Your task to perform on an android device: Clear all items from cart on walmart.com. Add "bose soundlink" to the cart on walmart.com Image 0: 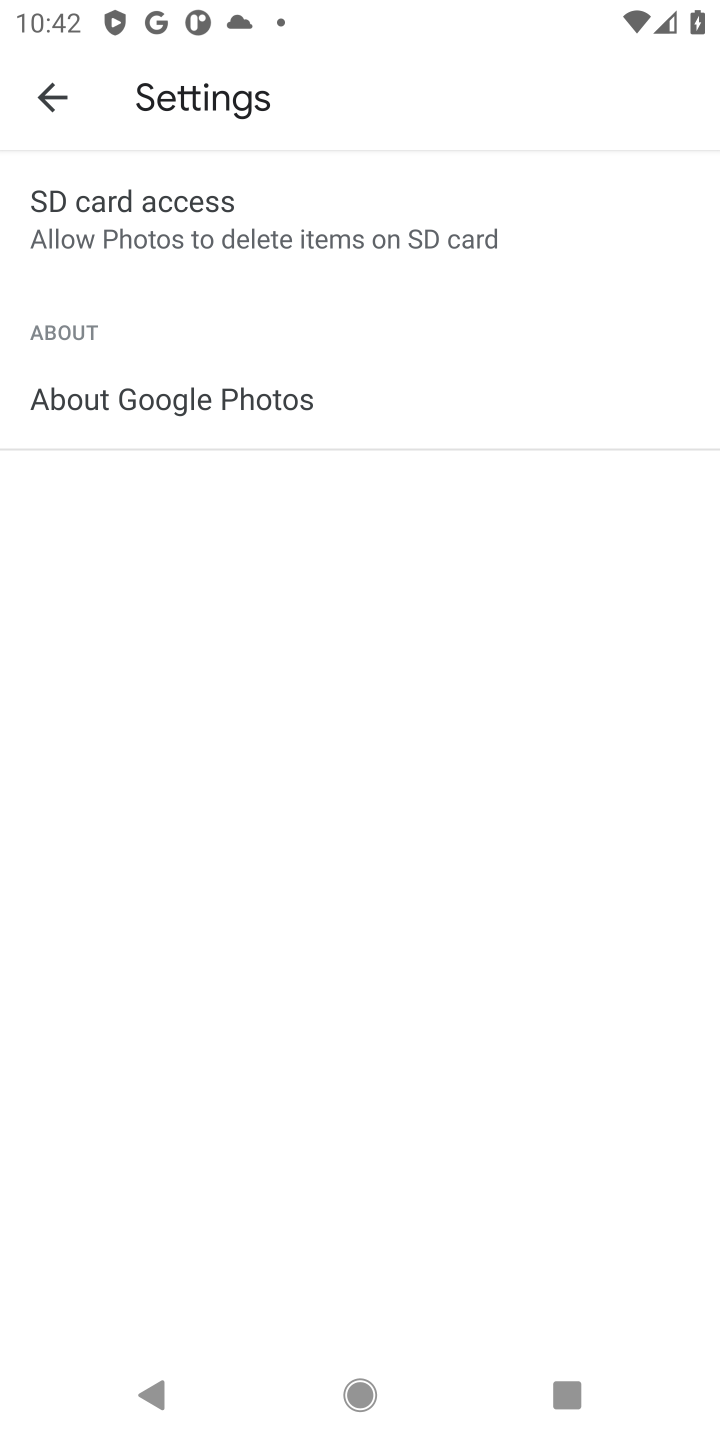
Step 0: press home button
Your task to perform on an android device: Clear all items from cart on walmart.com. Add "bose soundlink" to the cart on walmart.com Image 1: 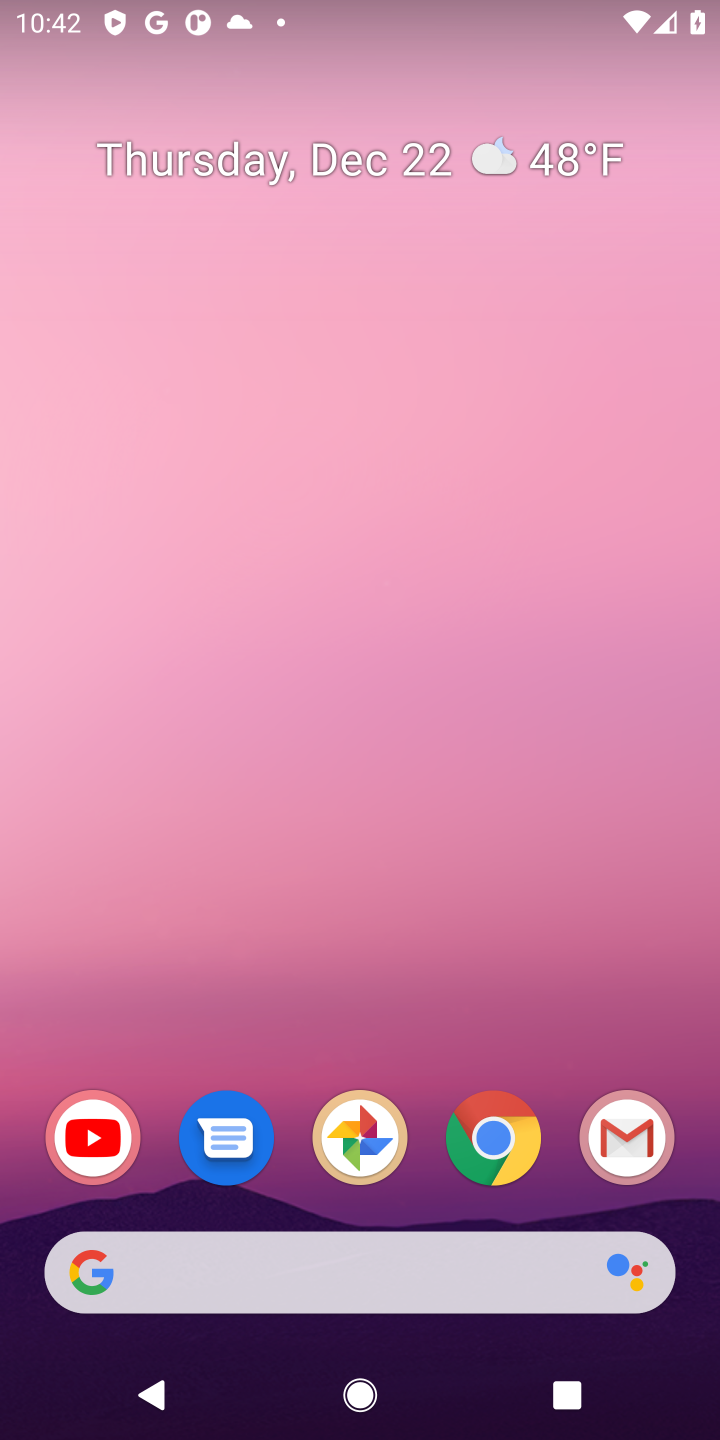
Step 1: click (495, 1123)
Your task to perform on an android device: Clear all items from cart on walmart.com. Add "bose soundlink" to the cart on walmart.com Image 2: 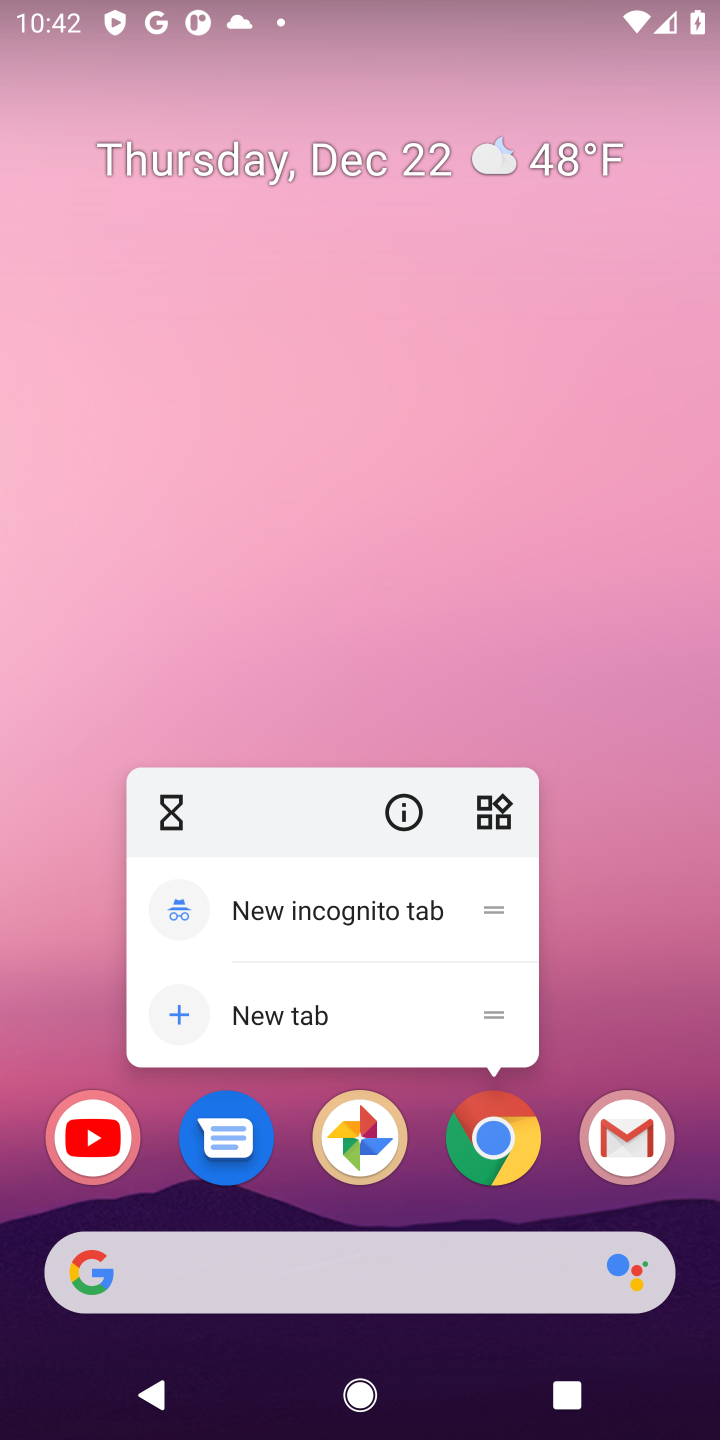
Step 2: click (498, 1138)
Your task to perform on an android device: Clear all items from cart on walmart.com. Add "bose soundlink" to the cart on walmart.com Image 3: 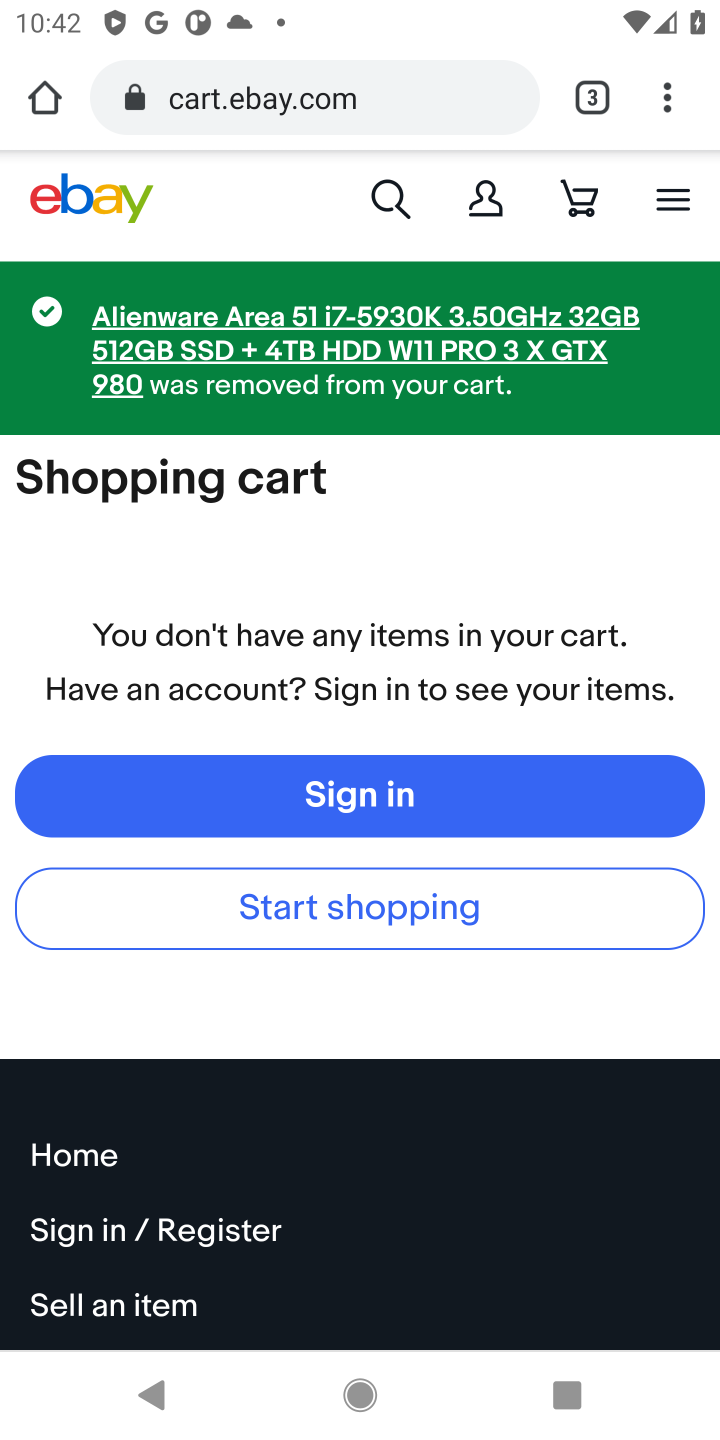
Step 3: click (398, 104)
Your task to perform on an android device: Clear all items from cart on walmart.com. Add "bose soundlink" to the cart on walmart.com Image 4: 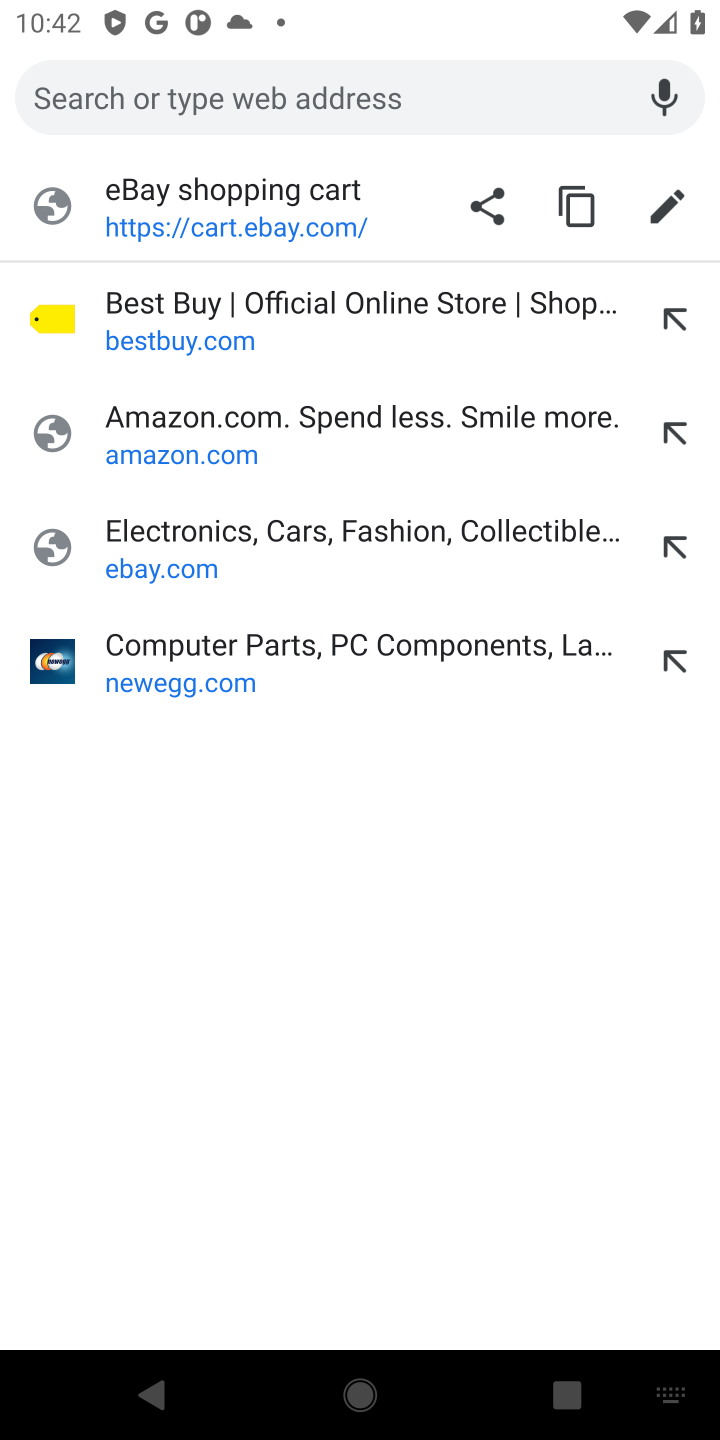
Step 4: type "walmart.com"
Your task to perform on an android device: Clear all items from cart on walmart.com. Add "bose soundlink" to the cart on walmart.com Image 5: 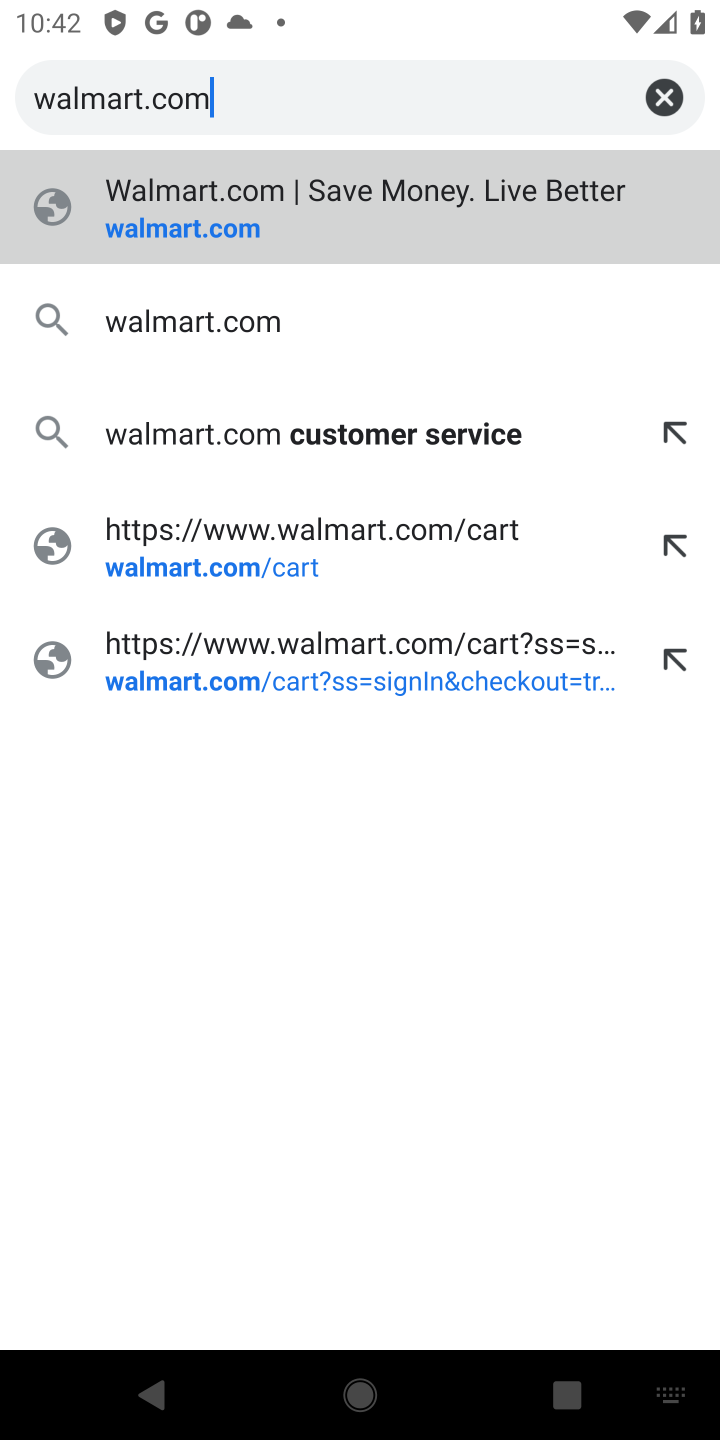
Step 5: click (243, 321)
Your task to perform on an android device: Clear all items from cart on walmart.com. Add "bose soundlink" to the cart on walmart.com Image 6: 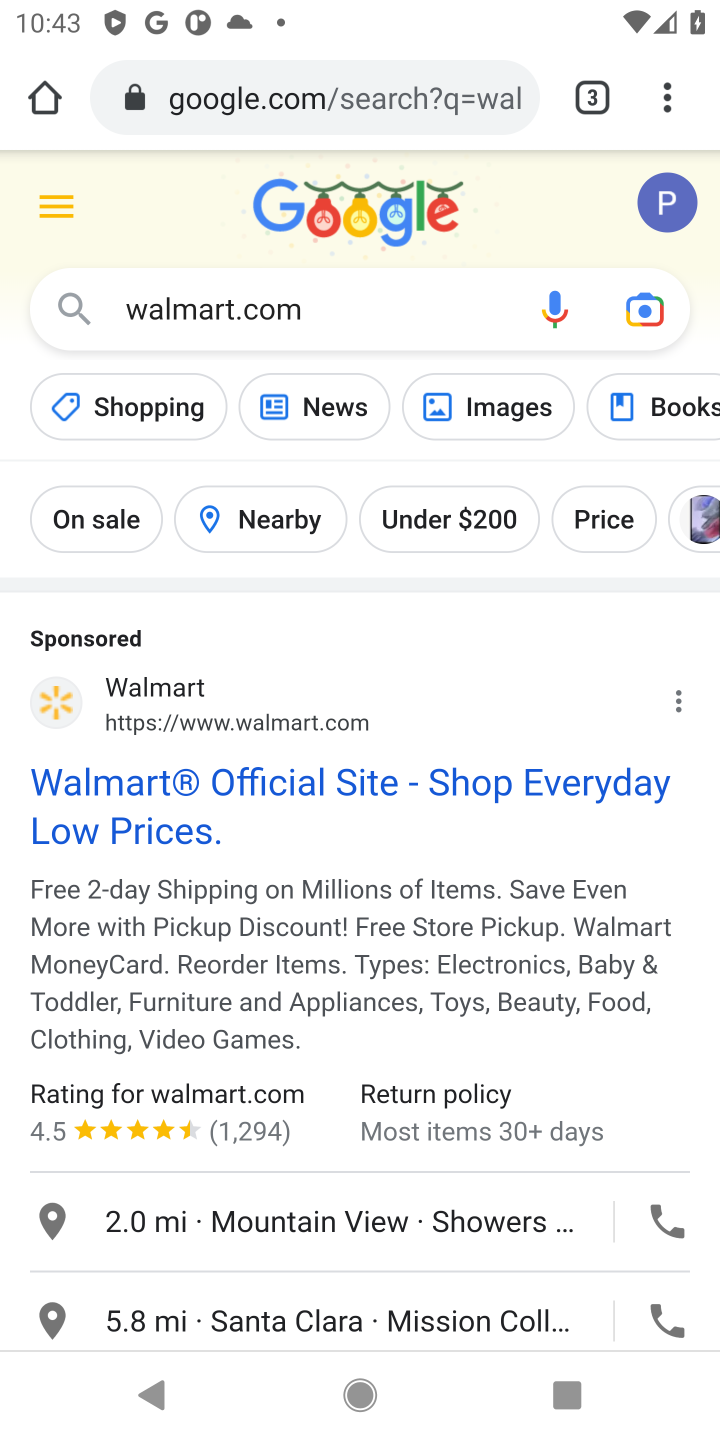
Step 6: click (156, 718)
Your task to perform on an android device: Clear all items from cart on walmart.com. Add "bose soundlink" to the cart on walmart.com Image 7: 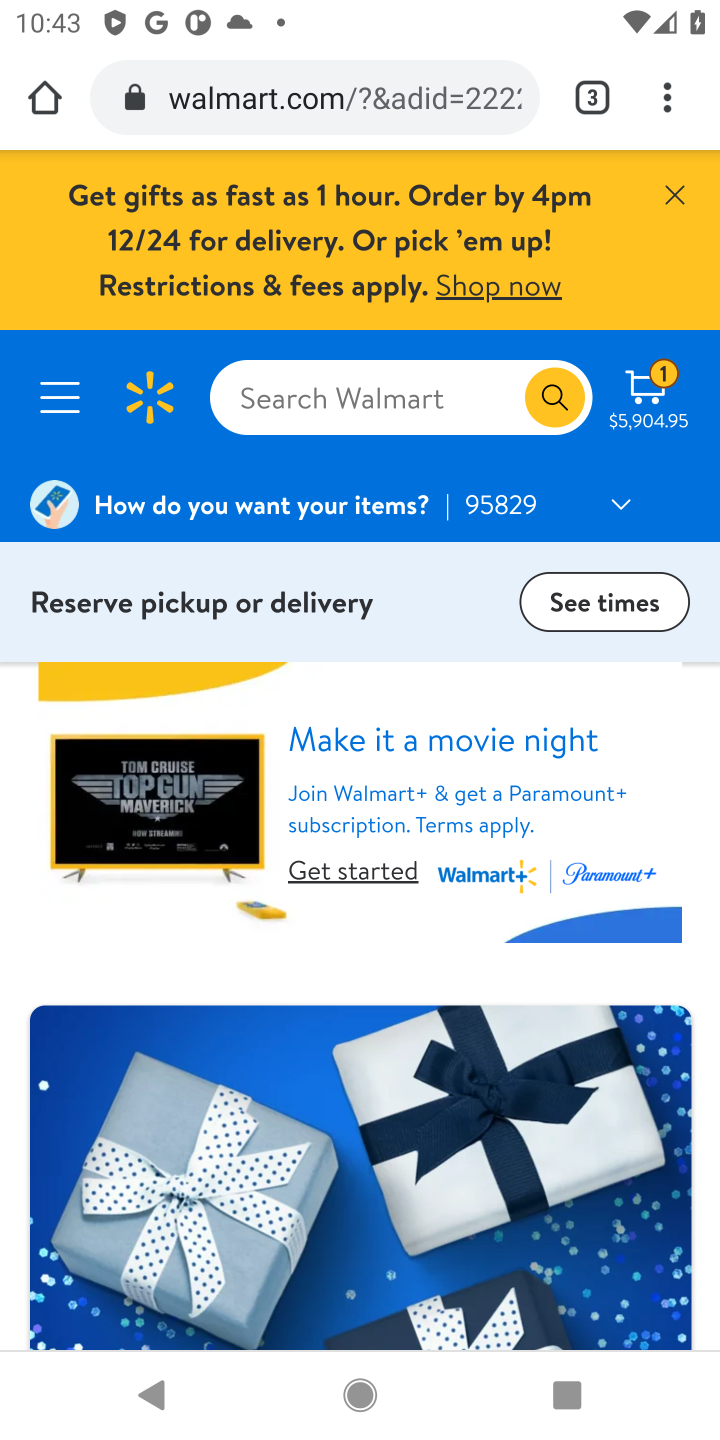
Step 7: click (670, 187)
Your task to perform on an android device: Clear all items from cart on walmart.com. Add "bose soundlink" to the cart on walmart.com Image 8: 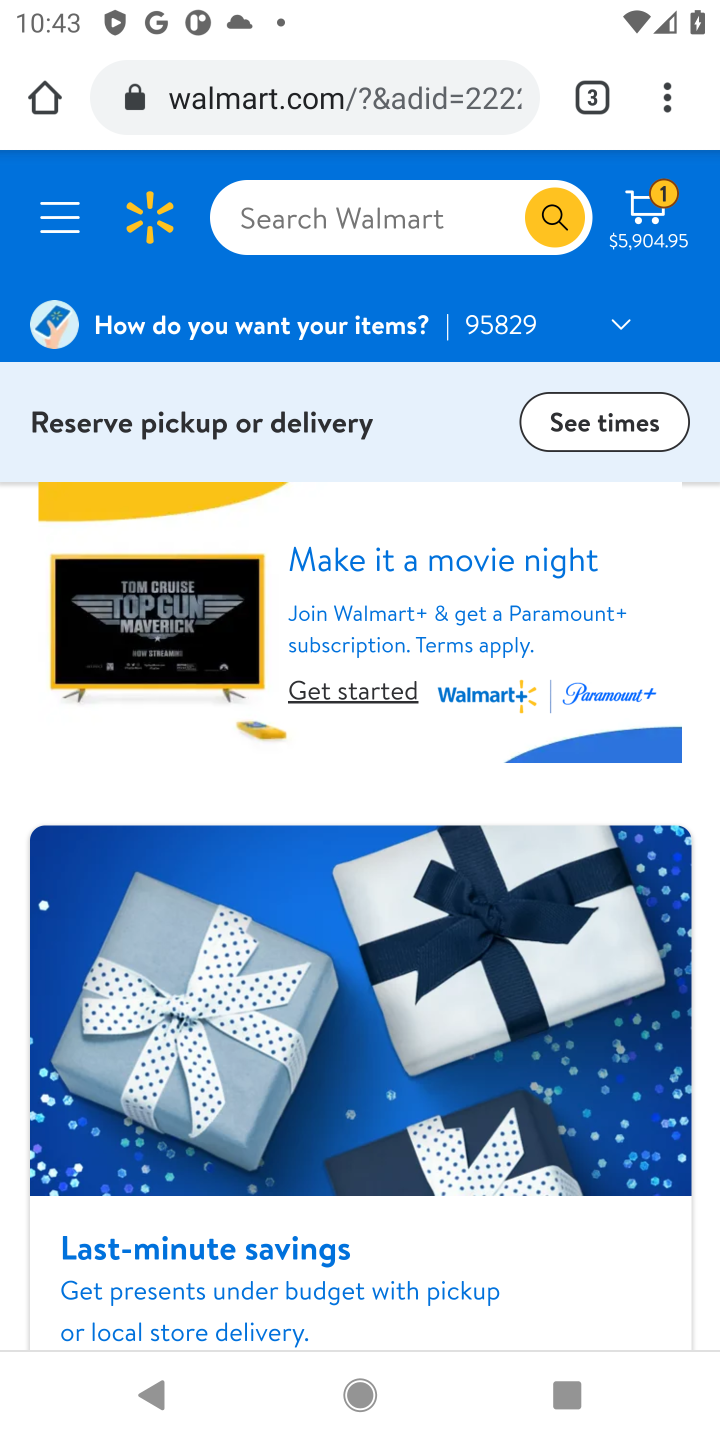
Step 8: click (635, 221)
Your task to perform on an android device: Clear all items from cart on walmart.com. Add "bose soundlink" to the cart on walmart.com Image 9: 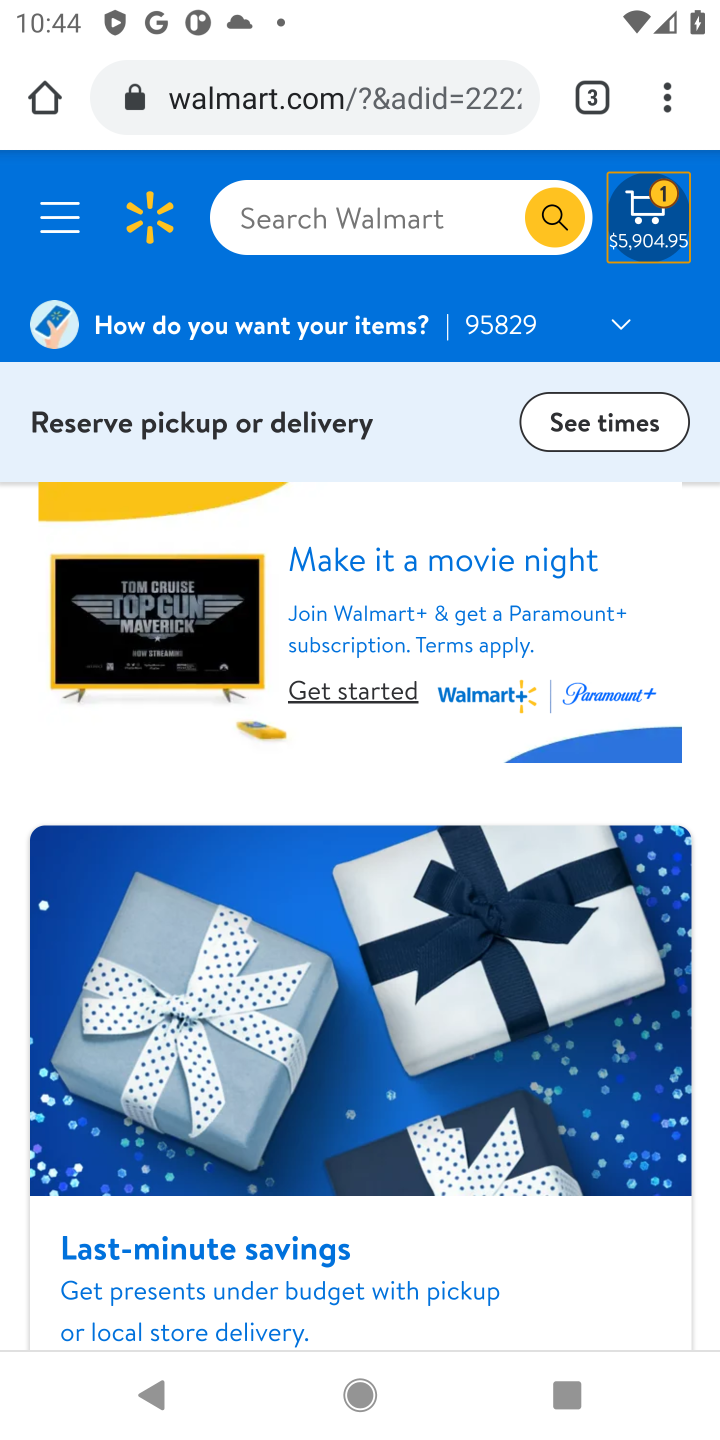
Step 9: drag from (599, 500) to (615, 188)
Your task to perform on an android device: Clear all items from cart on walmart.com. Add "bose soundlink" to the cart on walmart.com Image 10: 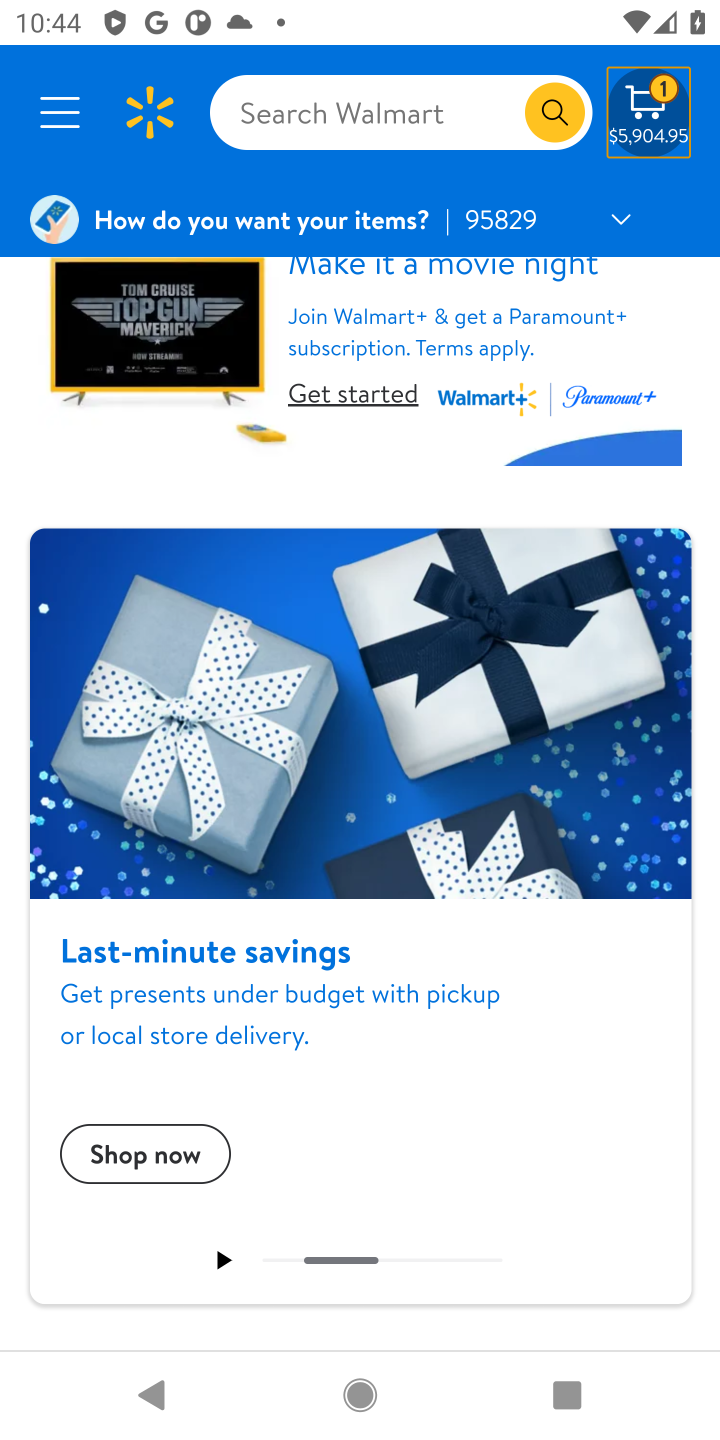
Step 10: drag from (530, 707) to (521, 495)
Your task to perform on an android device: Clear all items from cart on walmart.com. Add "bose soundlink" to the cart on walmart.com Image 11: 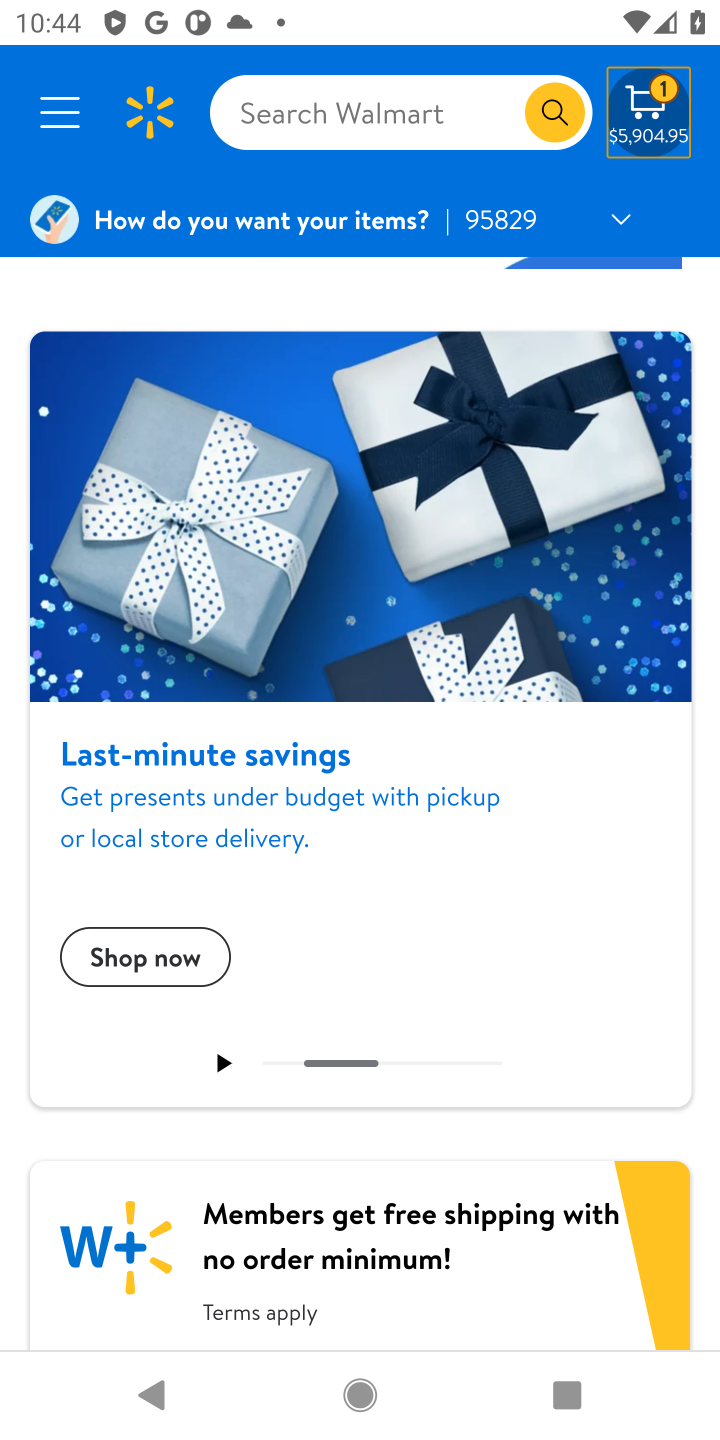
Step 11: click (643, 113)
Your task to perform on an android device: Clear all items from cart on walmart.com. Add "bose soundlink" to the cart on walmart.com Image 12: 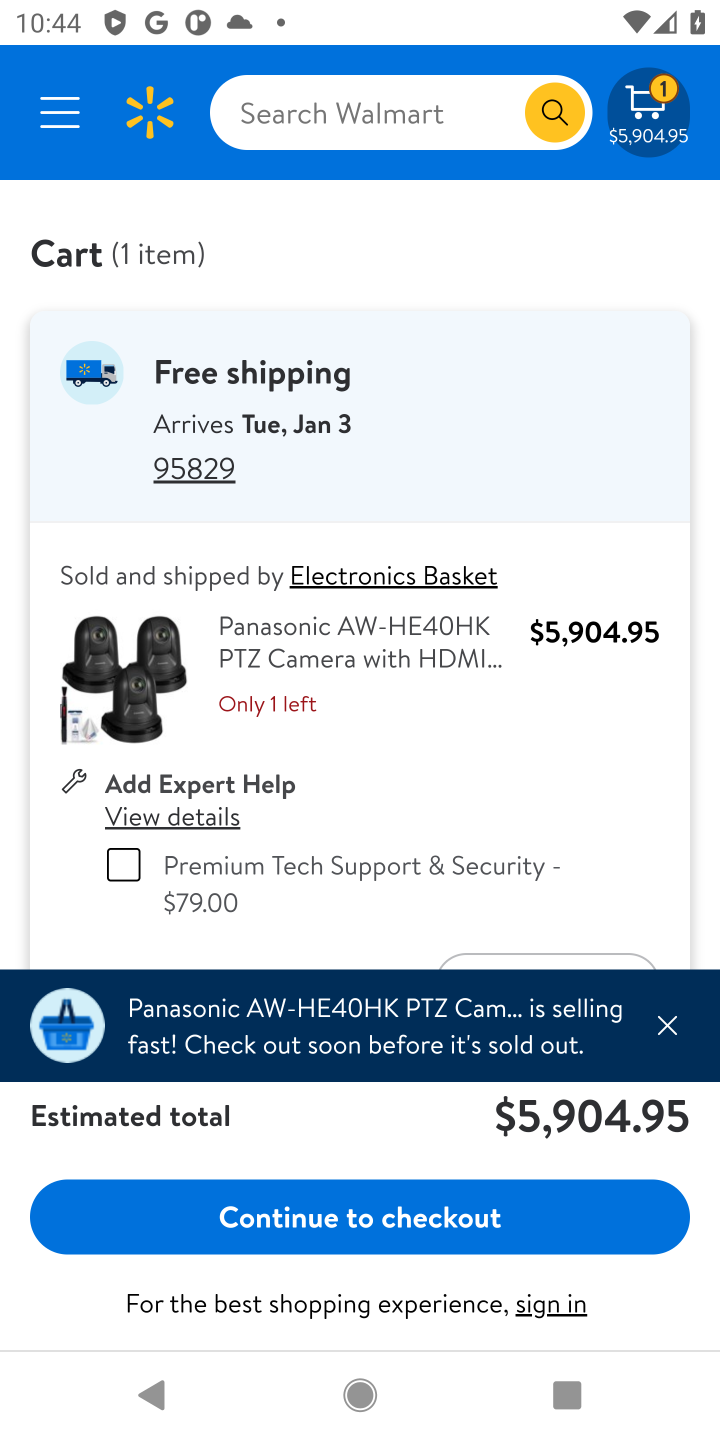
Step 12: drag from (508, 732) to (587, 272)
Your task to perform on an android device: Clear all items from cart on walmart.com. Add "bose soundlink" to the cart on walmart.com Image 13: 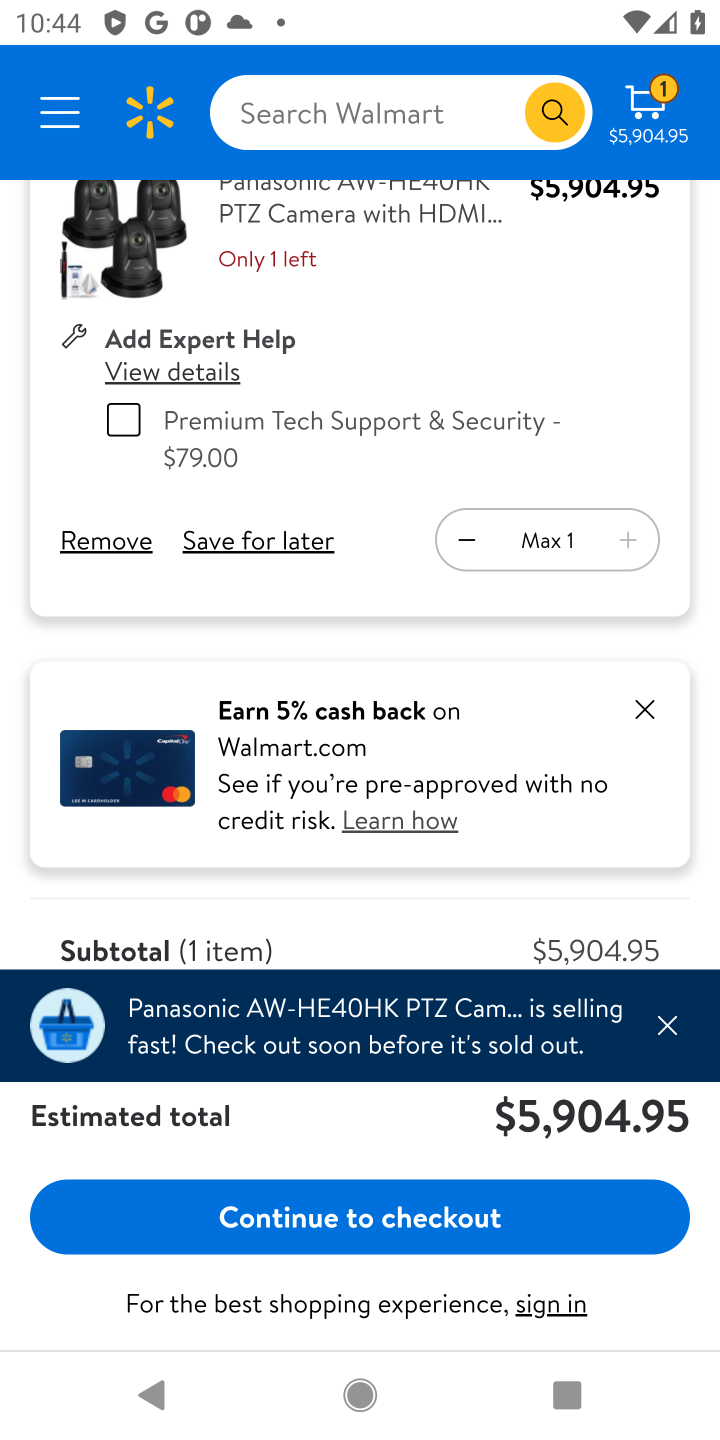
Step 13: click (124, 533)
Your task to perform on an android device: Clear all items from cart on walmart.com. Add "bose soundlink" to the cart on walmart.com Image 14: 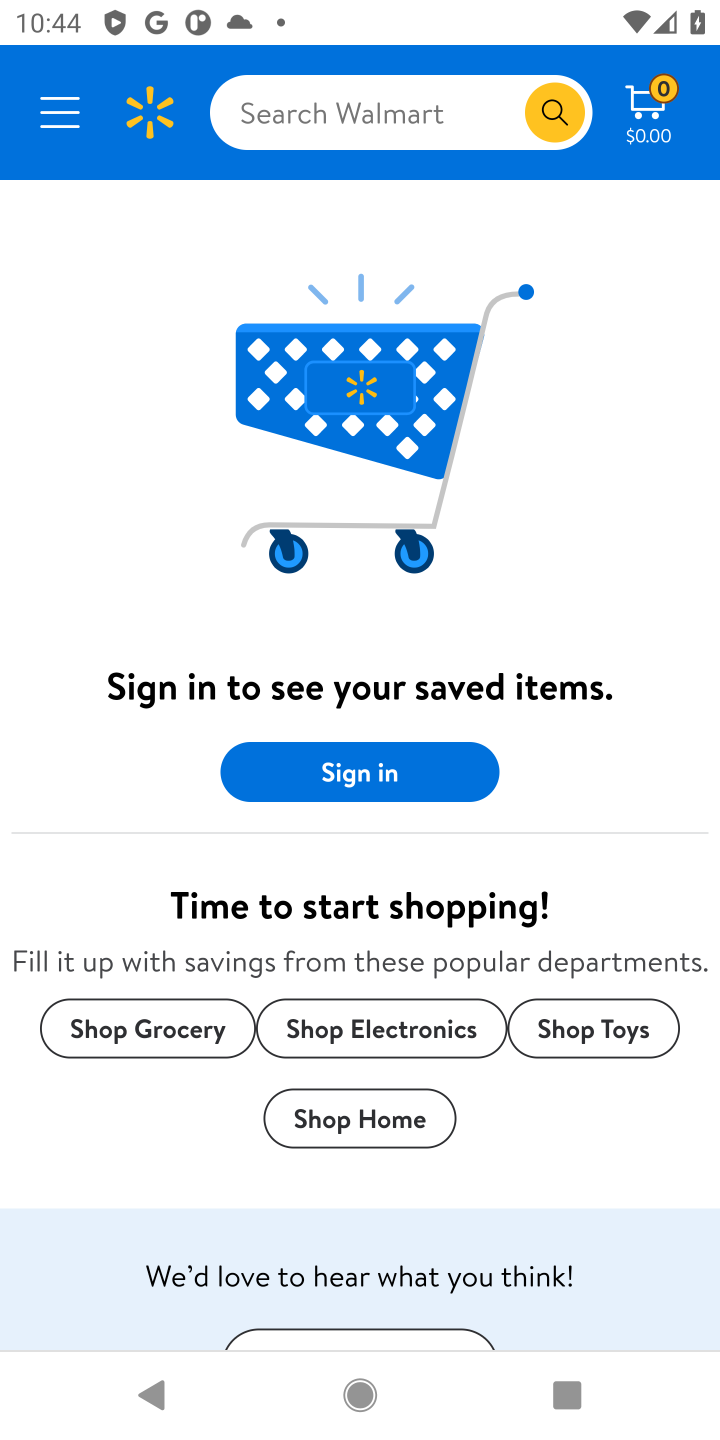
Step 14: drag from (524, 443) to (605, 1010)
Your task to perform on an android device: Clear all items from cart on walmart.com. Add "bose soundlink" to the cart on walmart.com Image 15: 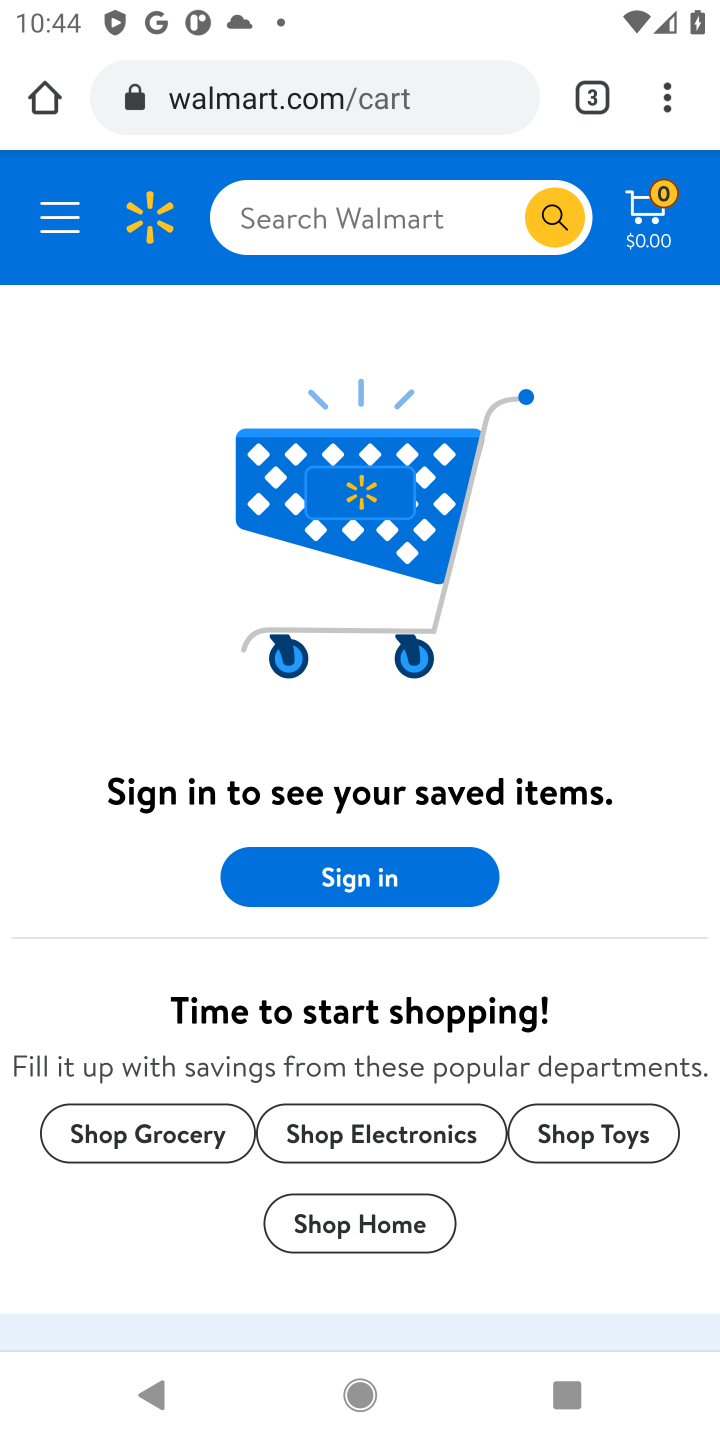
Step 15: click (360, 209)
Your task to perform on an android device: Clear all items from cart on walmart.com. Add "bose soundlink" to the cart on walmart.com Image 16: 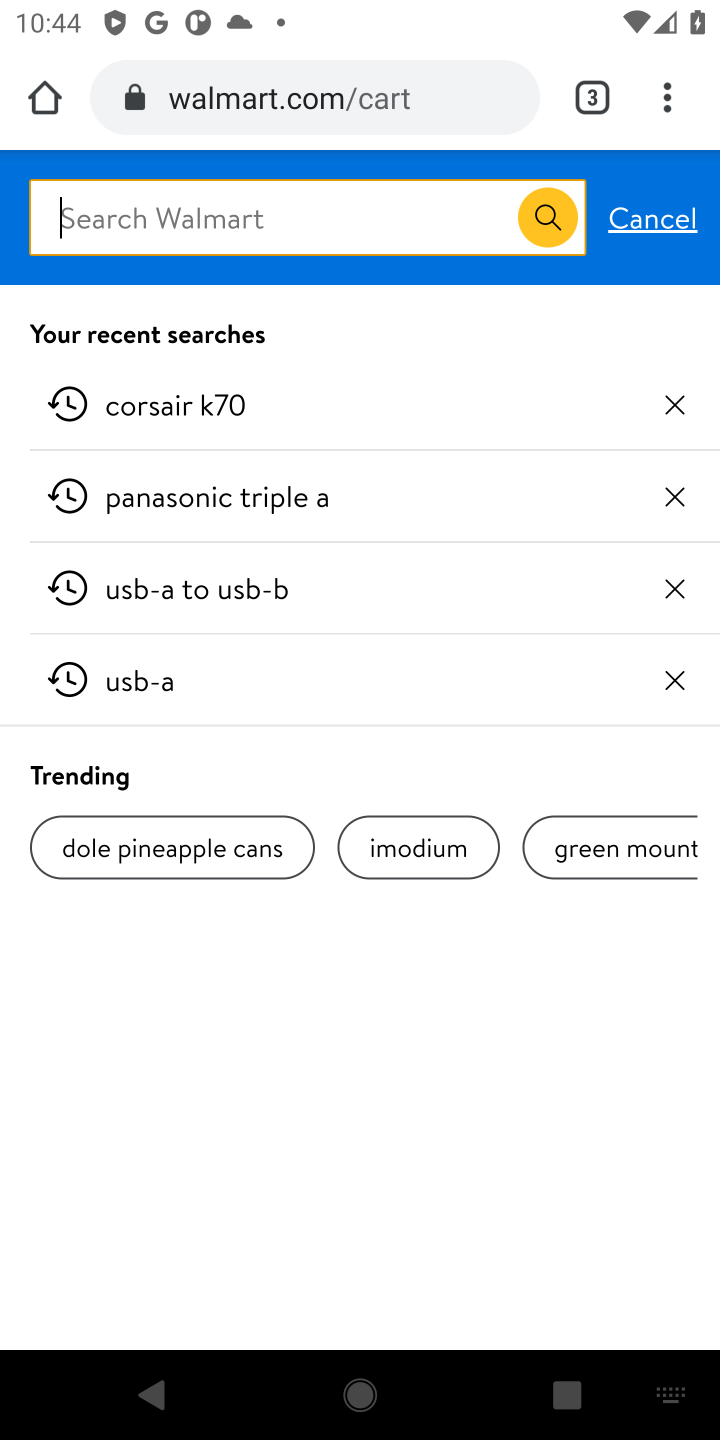
Step 16: type "bose soundlink"
Your task to perform on an android device: Clear all items from cart on walmart.com. Add "bose soundlink" to the cart on walmart.com Image 17: 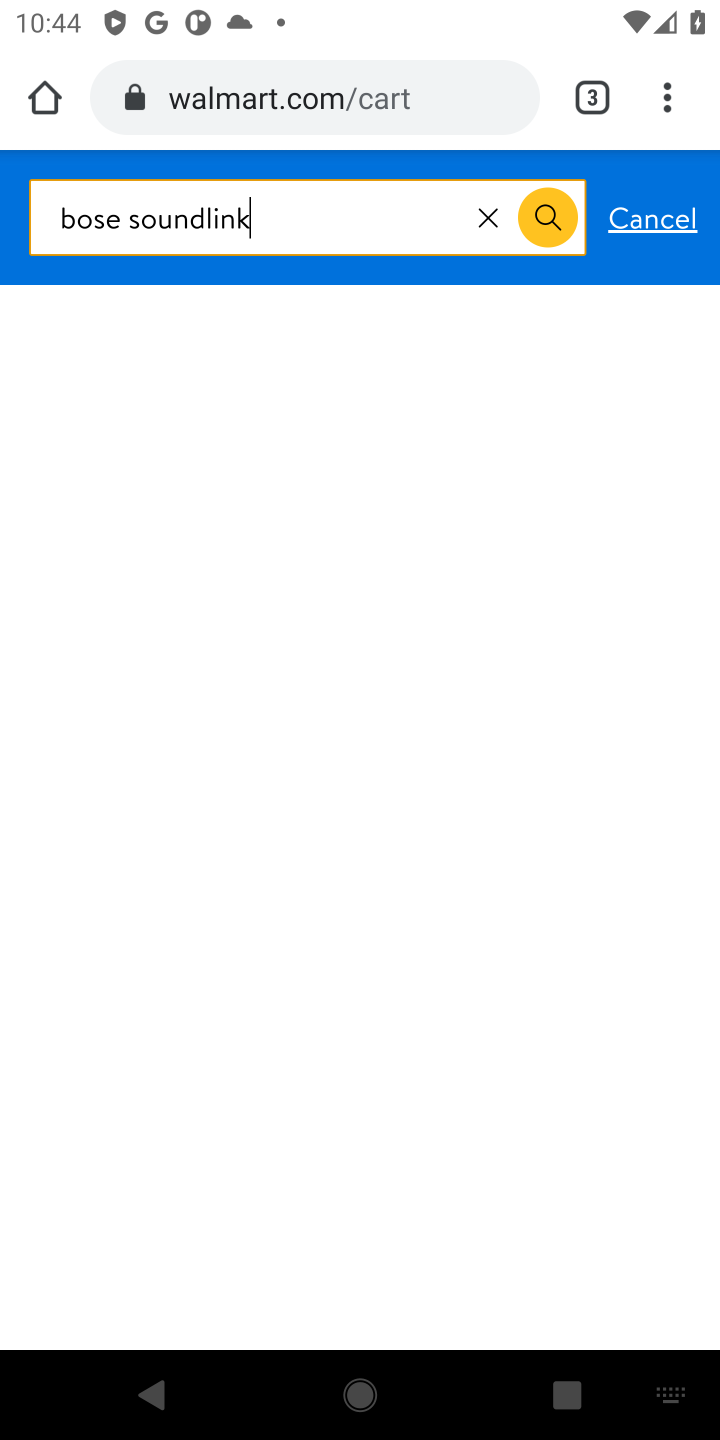
Step 17: press enter
Your task to perform on an android device: Clear all items from cart on walmart.com. Add "bose soundlink" to the cart on walmart.com Image 18: 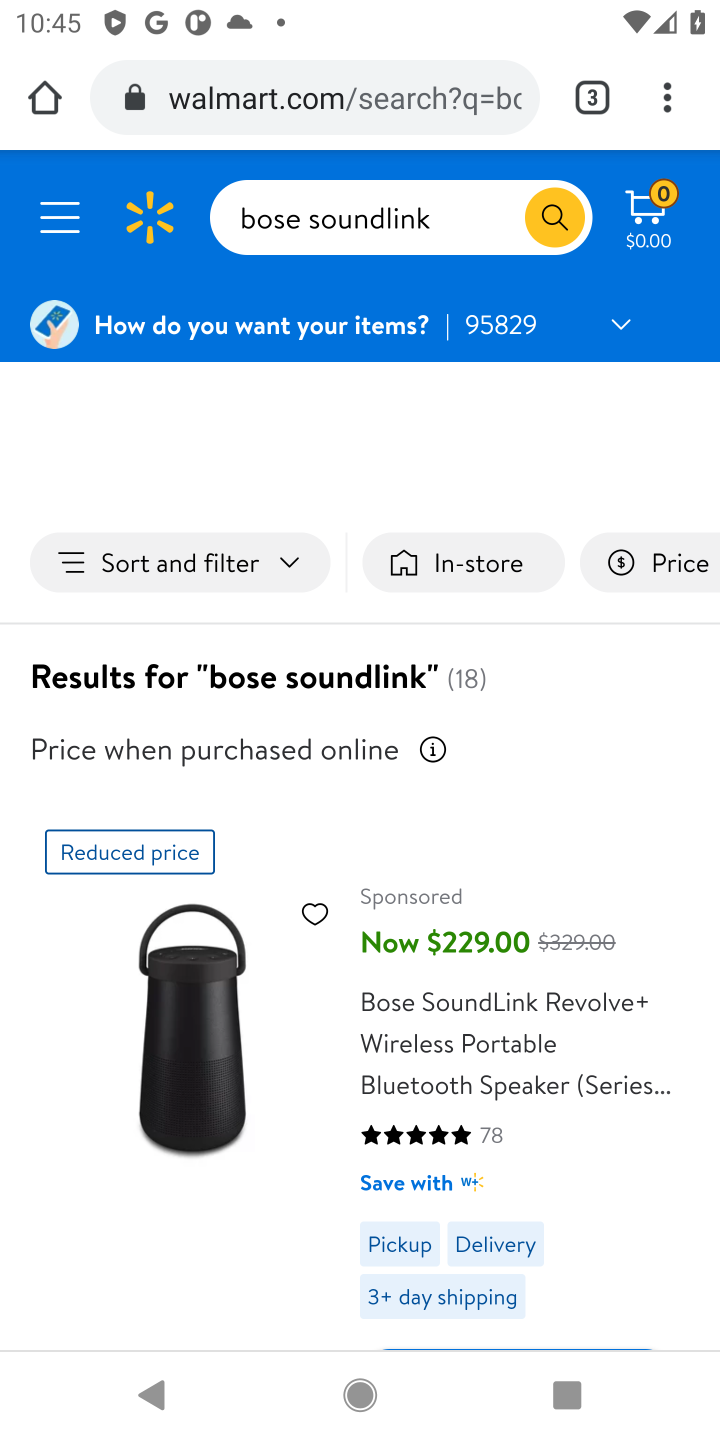
Step 18: click (188, 1049)
Your task to perform on an android device: Clear all items from cart on walmart.com. Add "bose soundlink" to the cart on walmart.com Image 19: 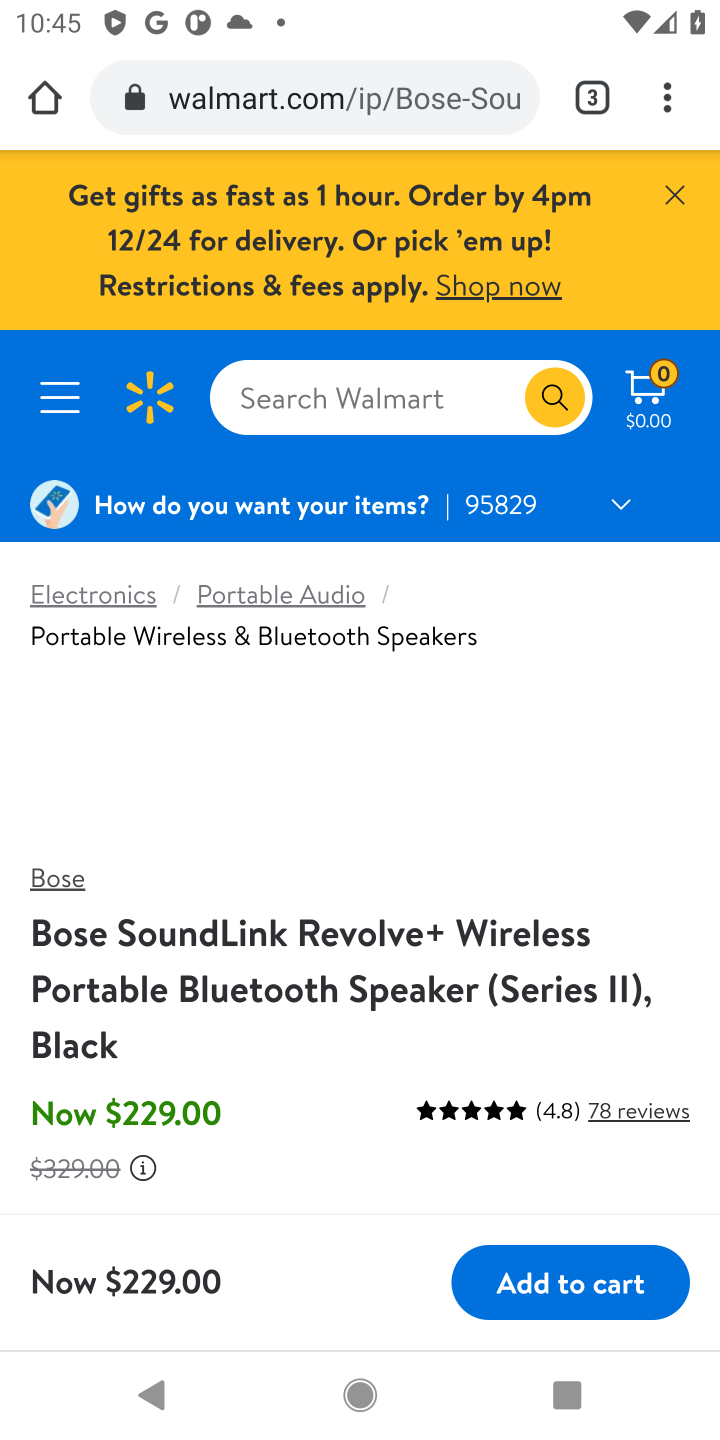
Step 19: drag from (323, 1015) to (432, 418)
Your task to perform on an android device: Clear all items from cart on walmart.com. Add "bose soundlink" to the cart on walmart.com Image 20: 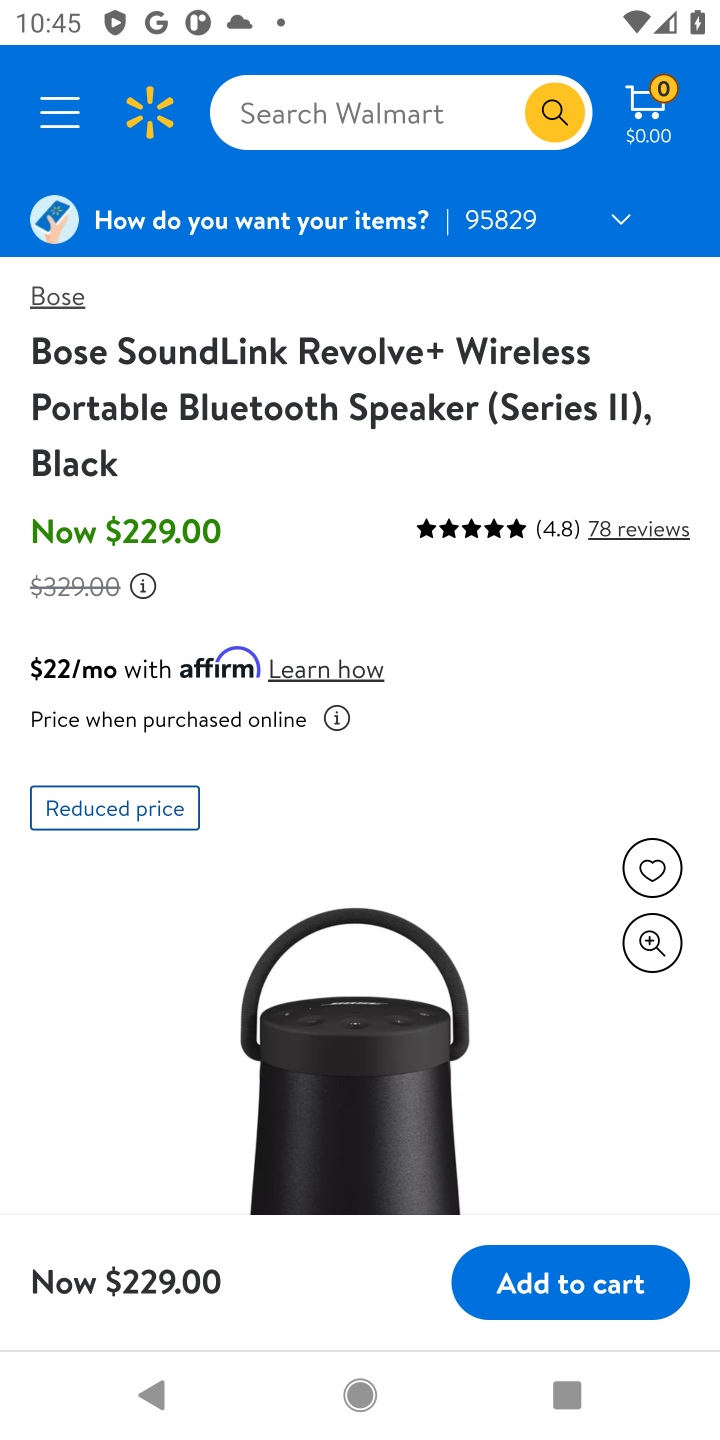
Step 20: click (580, 1284)
Your task to perform on an android device: Clear all items from cart on walmart.com. Add "bose soundlink" to the cart on walmart.com Image 21: 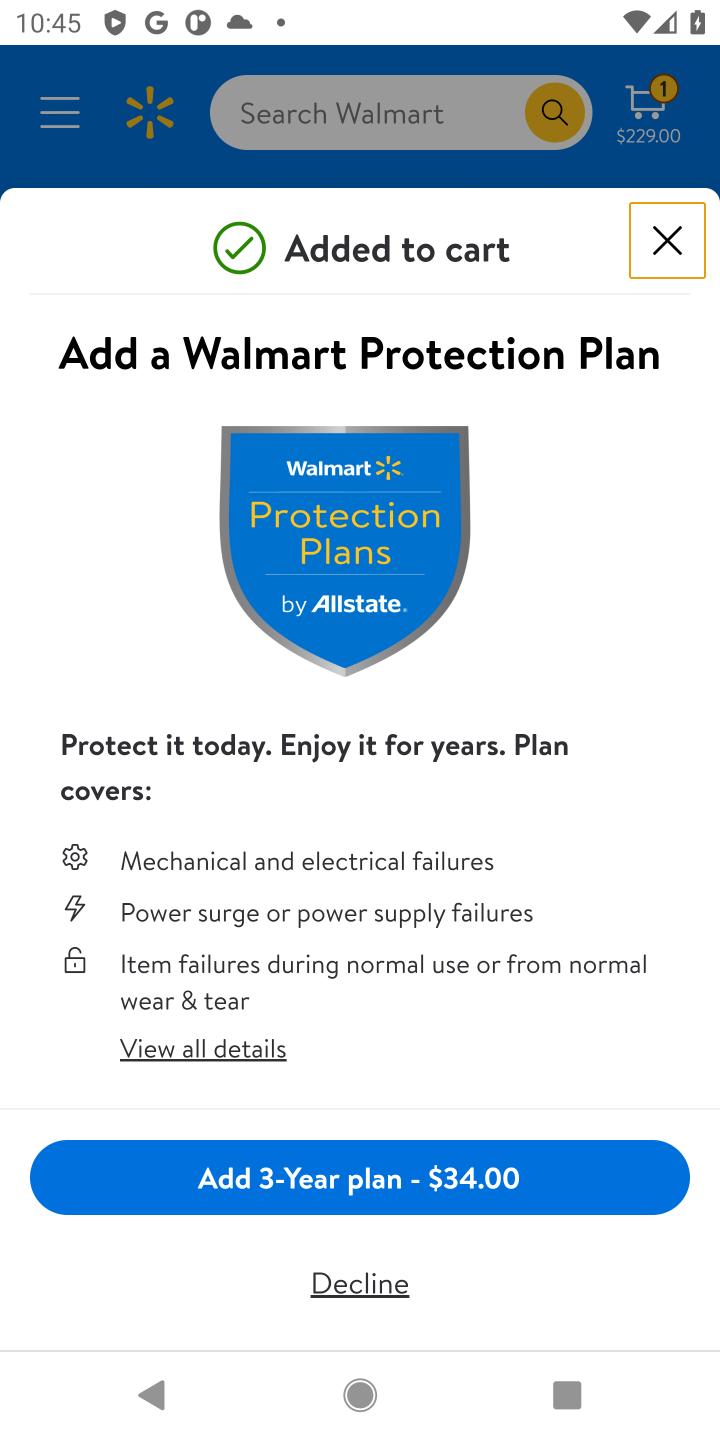
Step 21: click (657, 243)
Your task to perform on an android device: Clear all items from cart on walmart.com. Add "bose soundlink" to the cart on walmart.com Image 22: 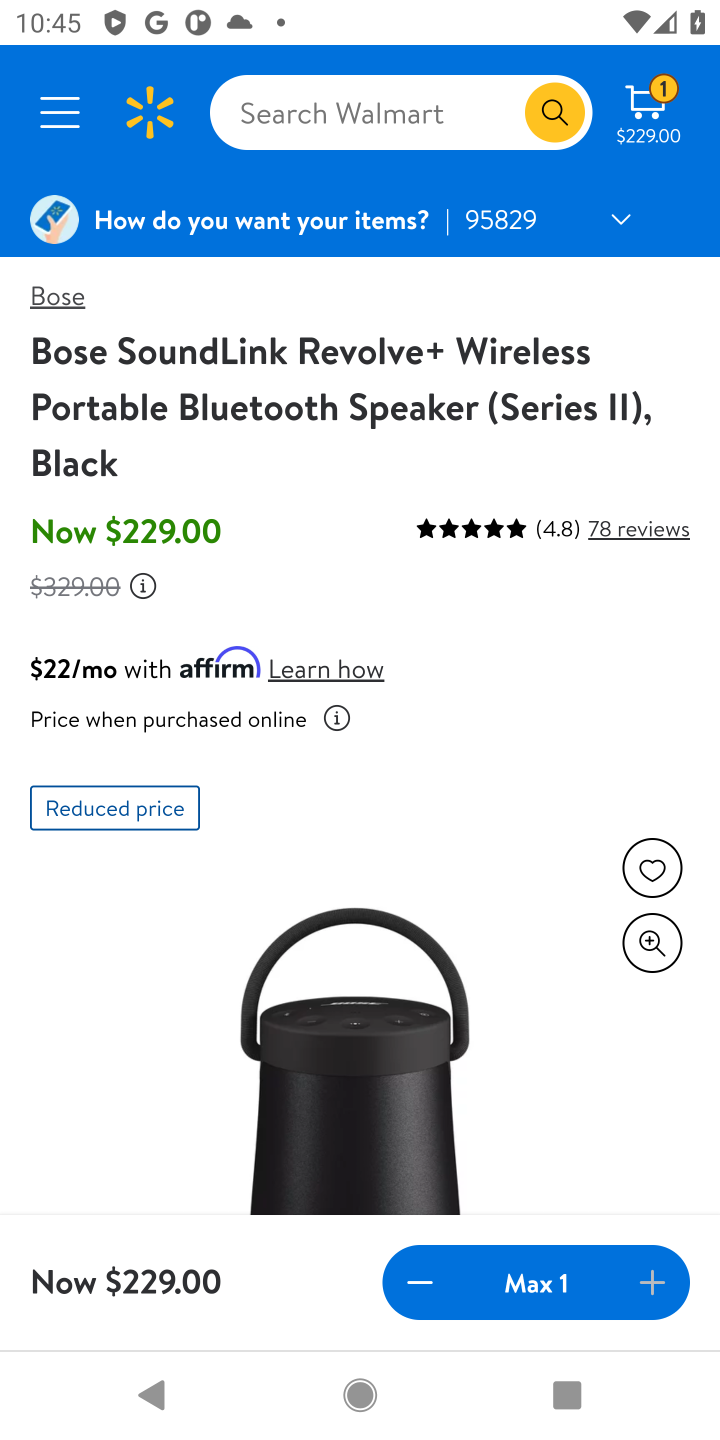
Step 22: click (648, 110)
Your task to perform on an android device: Clear all items from cart on walmart.com. Add "bose soundlink" to the cart on walmart.com Image 23: 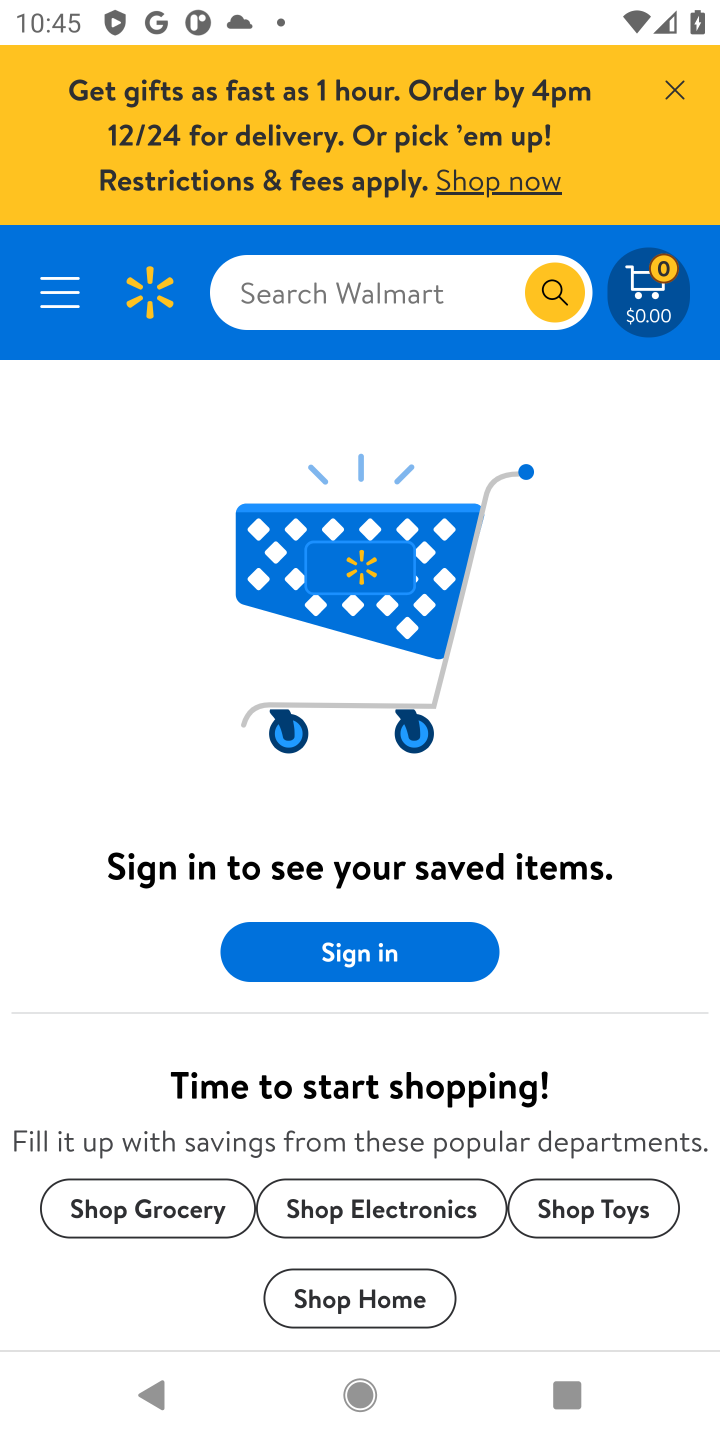
Step 23: click (399, 280)
Your task to perform on an android device: Clear all items from cart on walmart.com. Add "bose soundlink" to the cart on walmart.com Image 24: 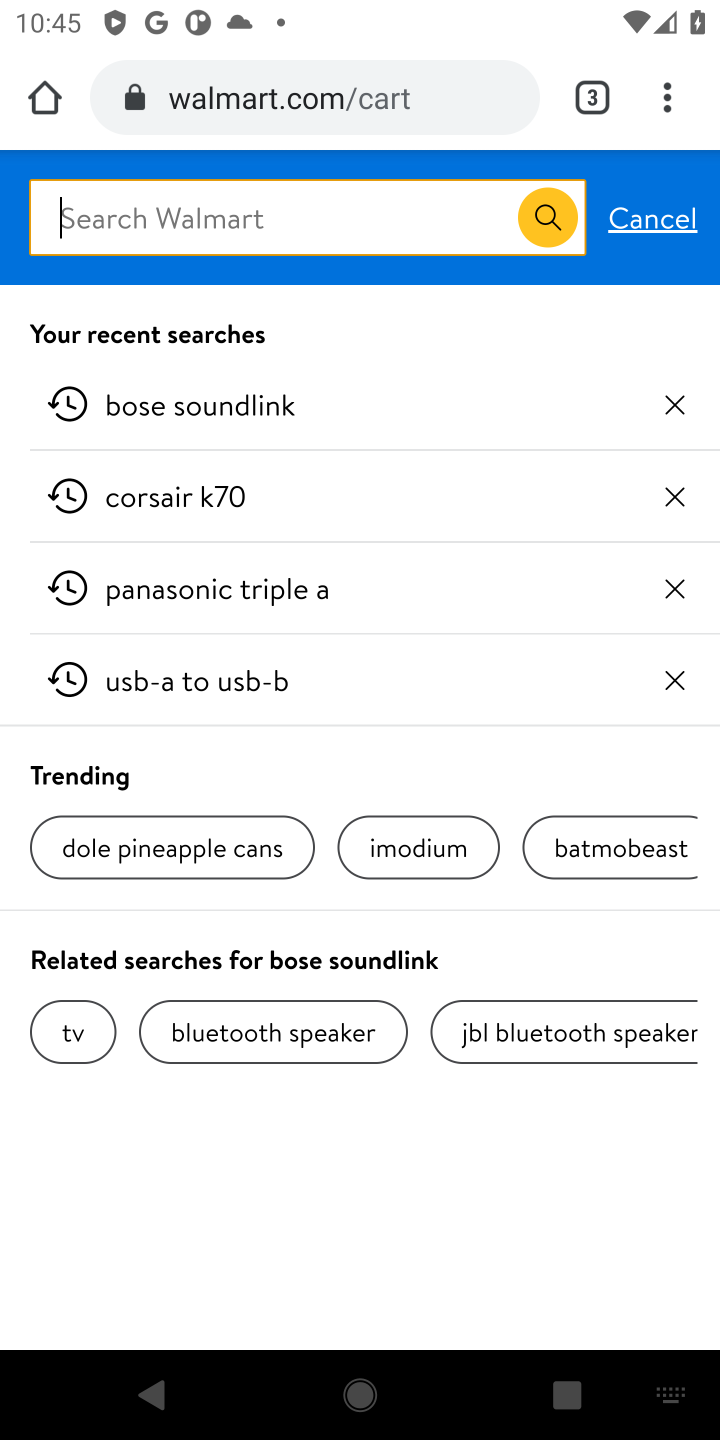
Step 24: click (227, 404)
Your task to perform on an android device: Clear all items from cart on walmart.com. Add "bose soundlink" to the cart on walmart.com Image 25: 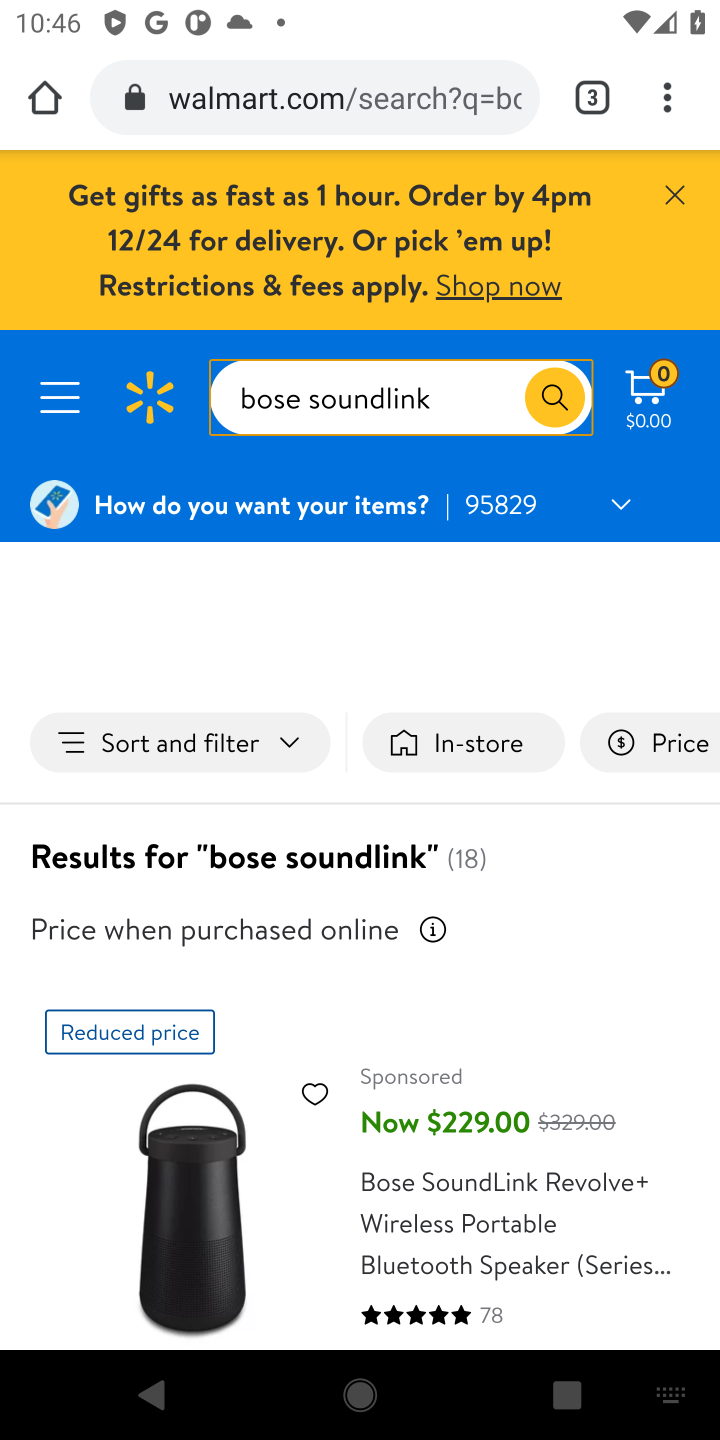
Step 25: drag from (529, 995) to (626, 288)
Your task to perform on an android device: Clear all items from cart on walmart.com. Add "bose soundlink" to the cart on walmart.com Image 26: 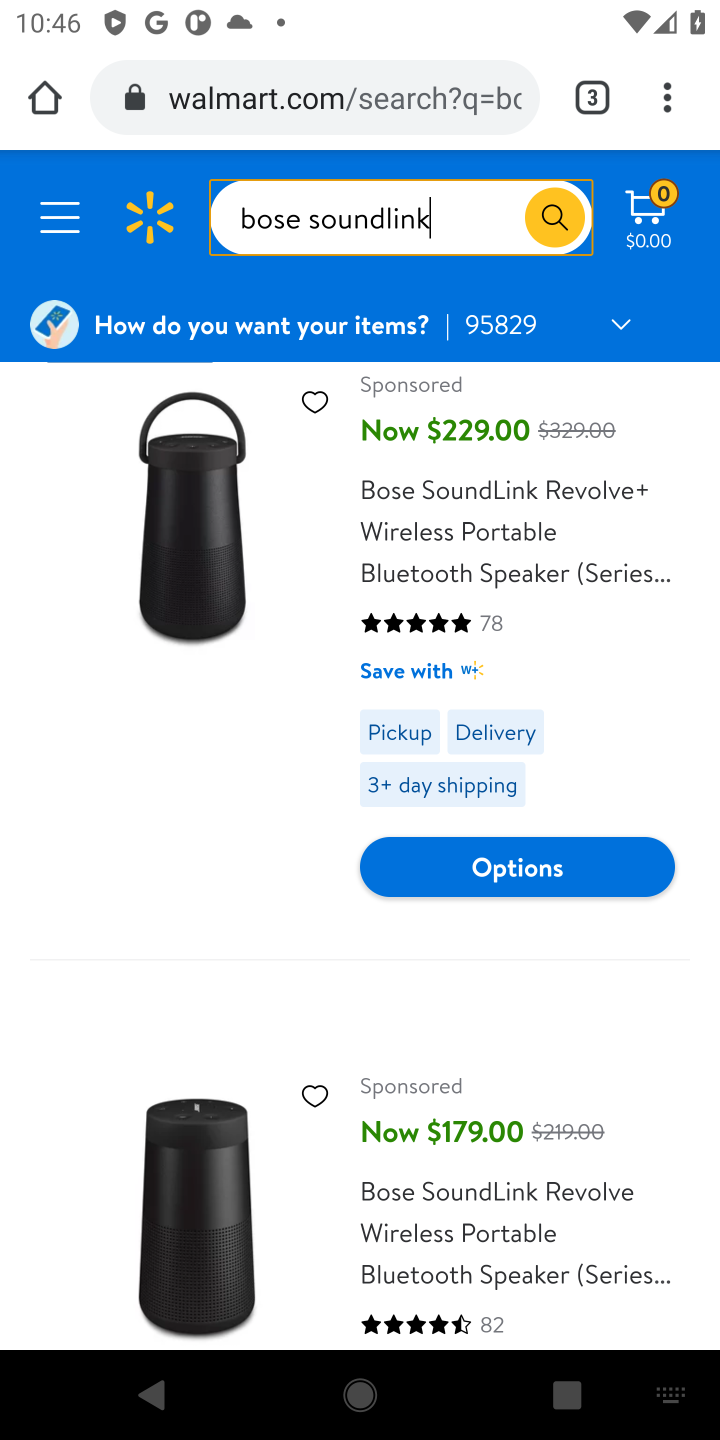
Step 26: drag from (592, 871) to (610, 424)
Your task to perform on an android device: Clear all items from cart on walmart.com. Add "bose soundlink" to the cart on walmart.com Image 27: 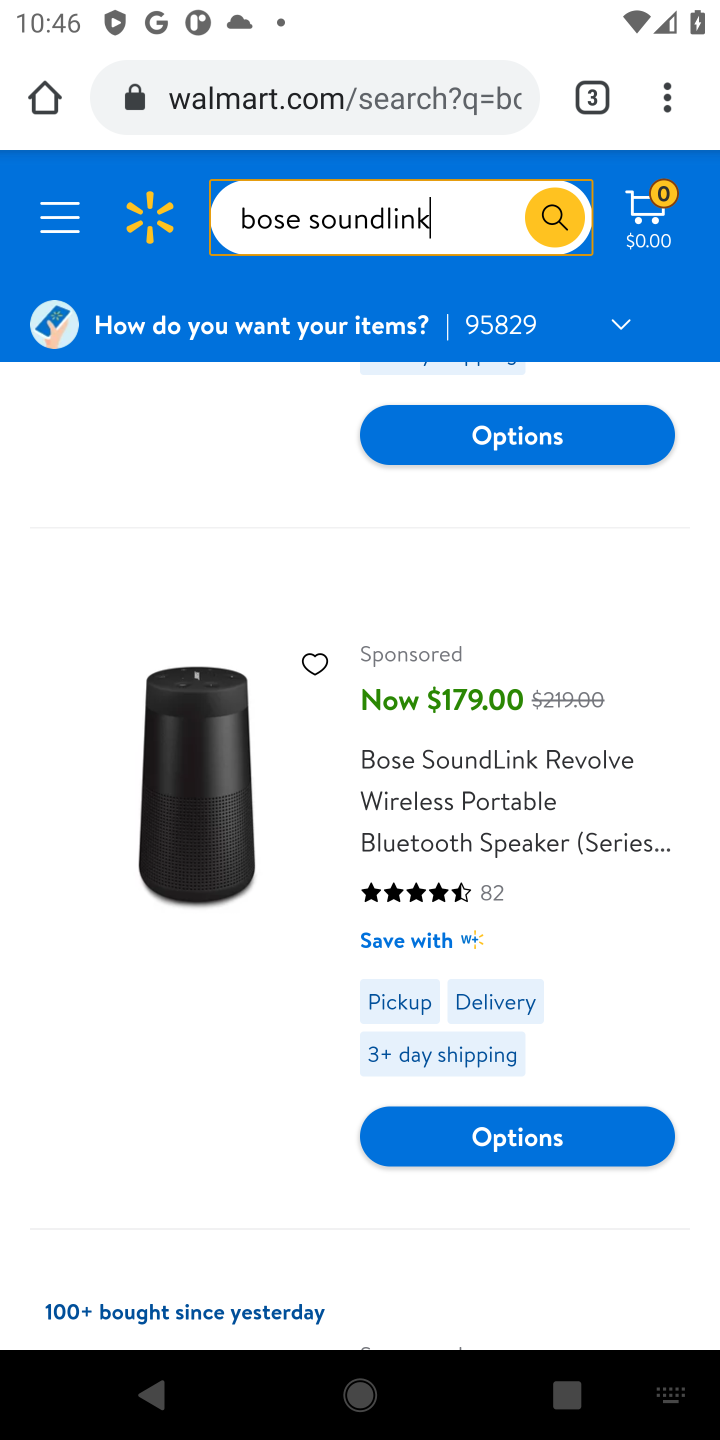
Step 27: click (176, 773)
Your task to perform on an android device: Clear all items from cart on walmart.com. Add "bose soundlink" to the cart on walmart.com Image 28: 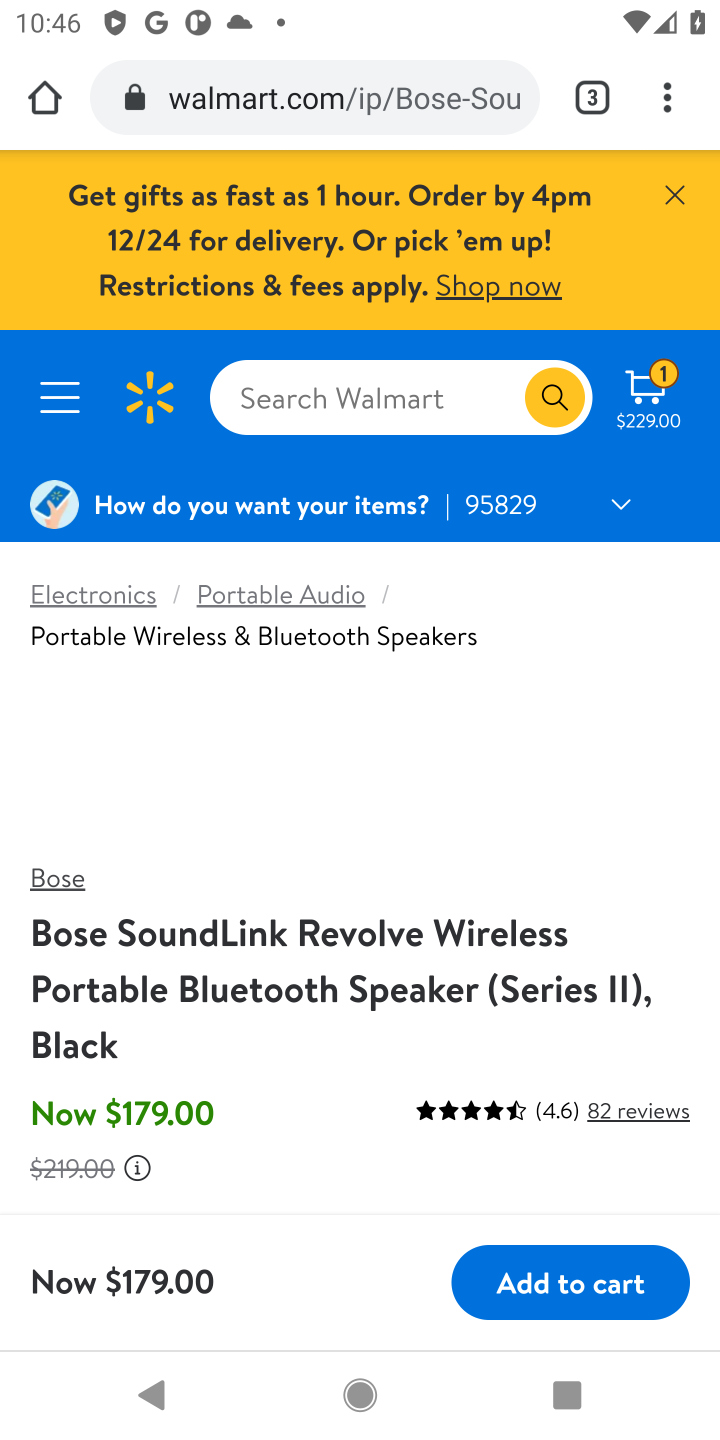
Step 28: click (591, 1291)
Your task to perform on an android device: Clear all items from cart on walmart.com. Add "bose soundlink" to the cart on walmart.com Image 29: 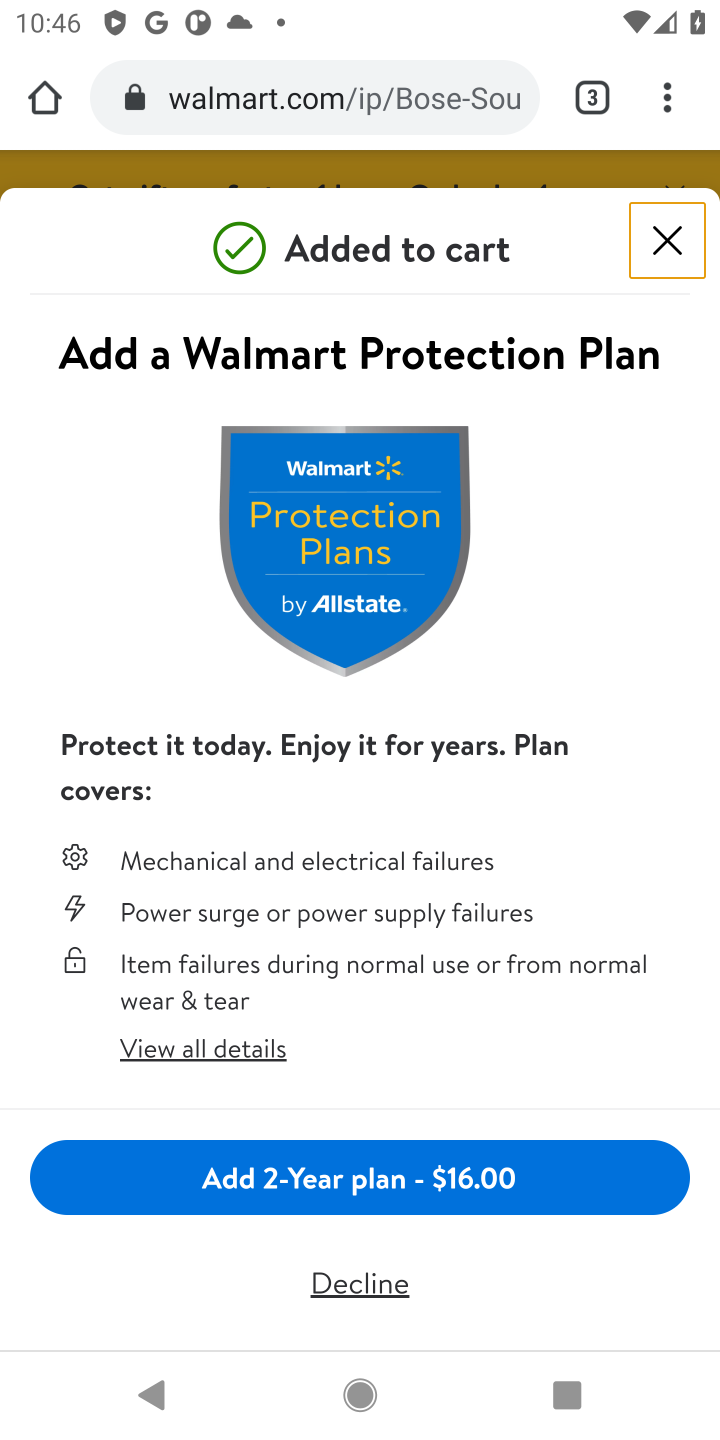
Step 29: click (663, 229)
Your task to perform on an android device: Clear all items from cart on walmart.com. Add "bose soundlink" to the cart on walmart.com Image 30: 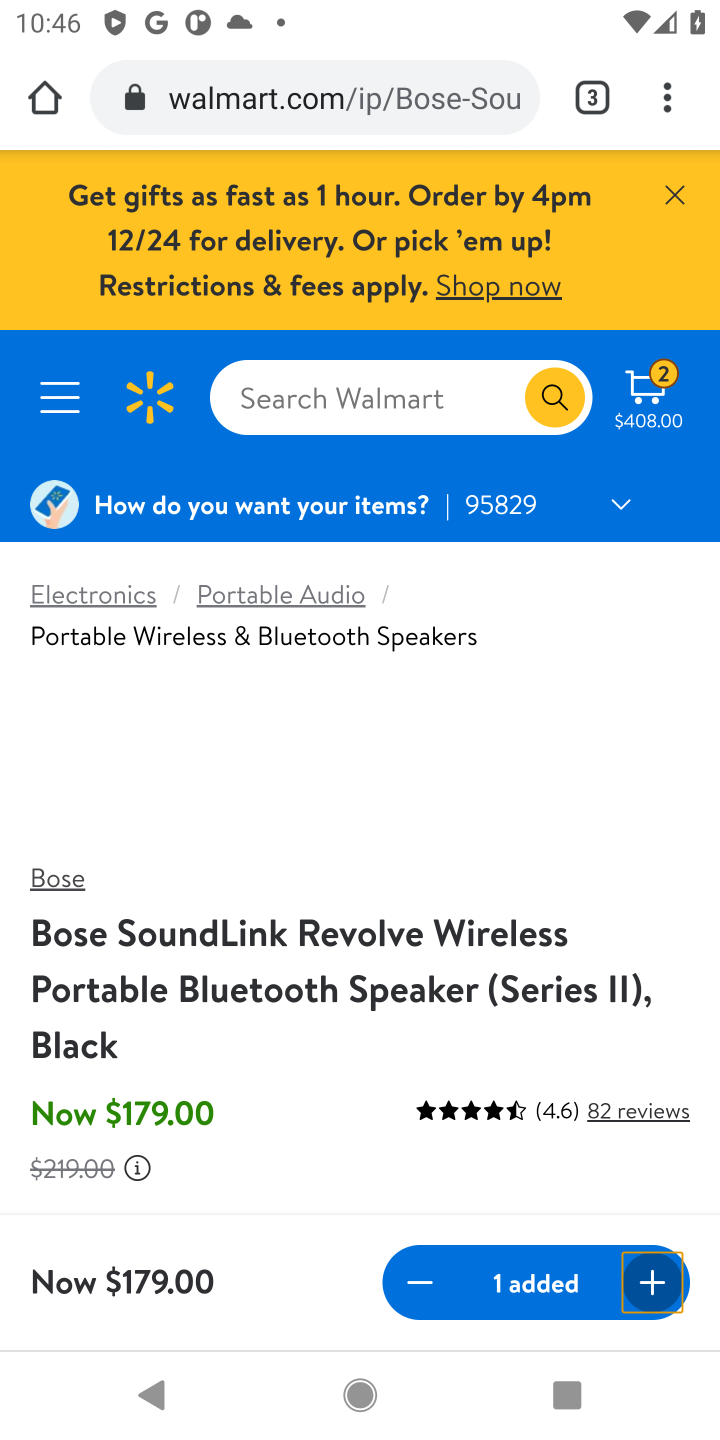
Step 30: click (636, 402)
Your task to perform on an android device: Clear all items from cart on walmart.com. Add "bose soundlink" to the cart on walmart.com Image 31: 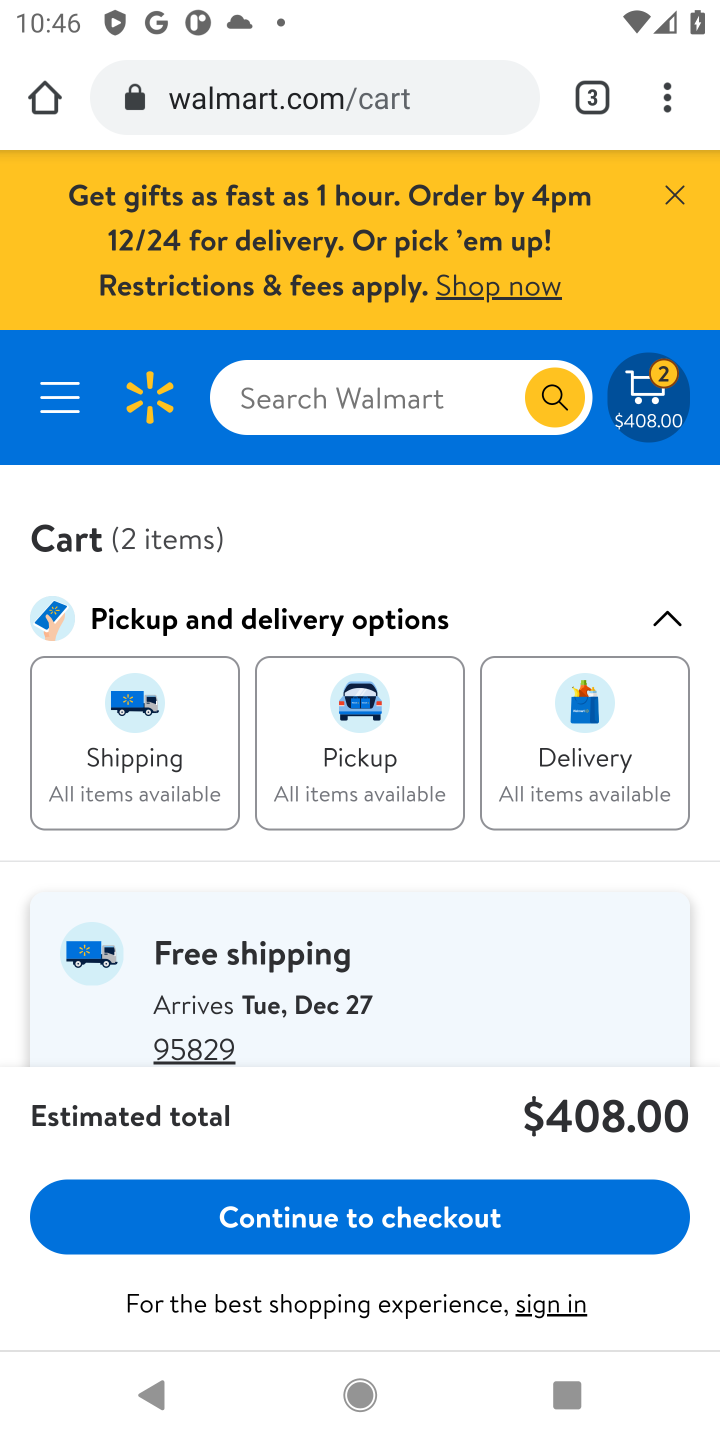
Step 31: click (620, 417)
Your task to perform on an android device: Clear all items from cart on walmart.com. Add "bose soundlink" to the cart on walmart.com Image 32: 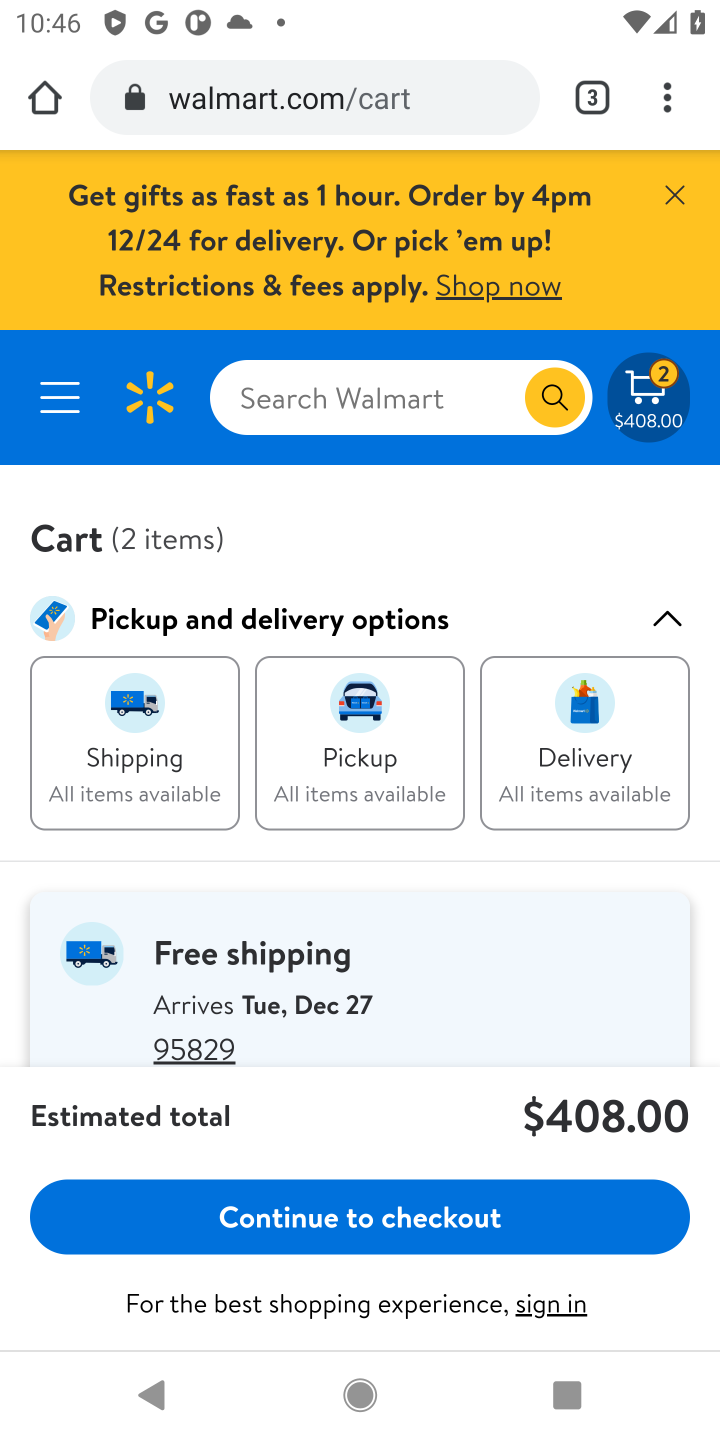
Step 32: click (620, 417)
Your task to perform on an android device: Clear all items from cart on walmart.com. Add "bose soundlink" to the cart on walmart.com Image 33: 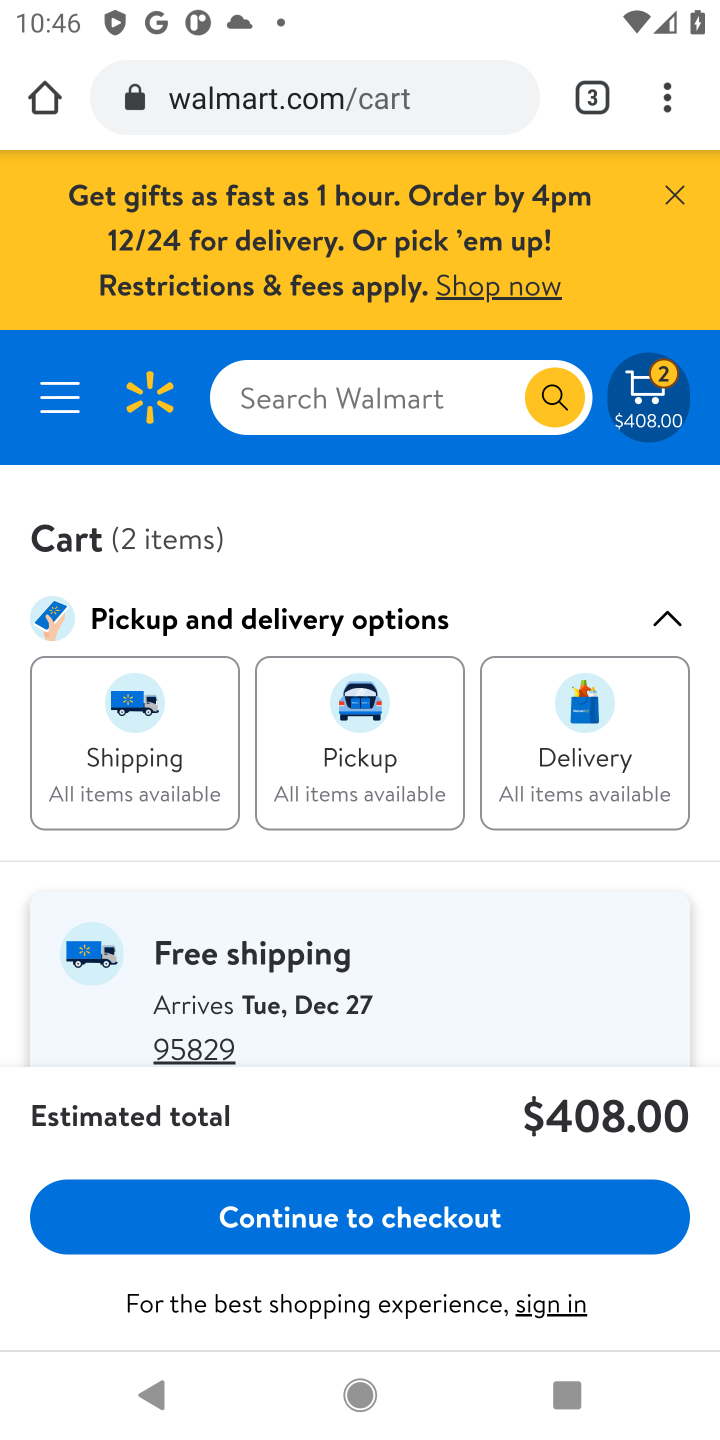
Step 33: task complete